Your task to perform on an android device: Clear the shopping cart on bestbuy. Search for "jbl flip 4" on bestbuy, select the first entry, add it to the cart, then select checkout. Image 0: 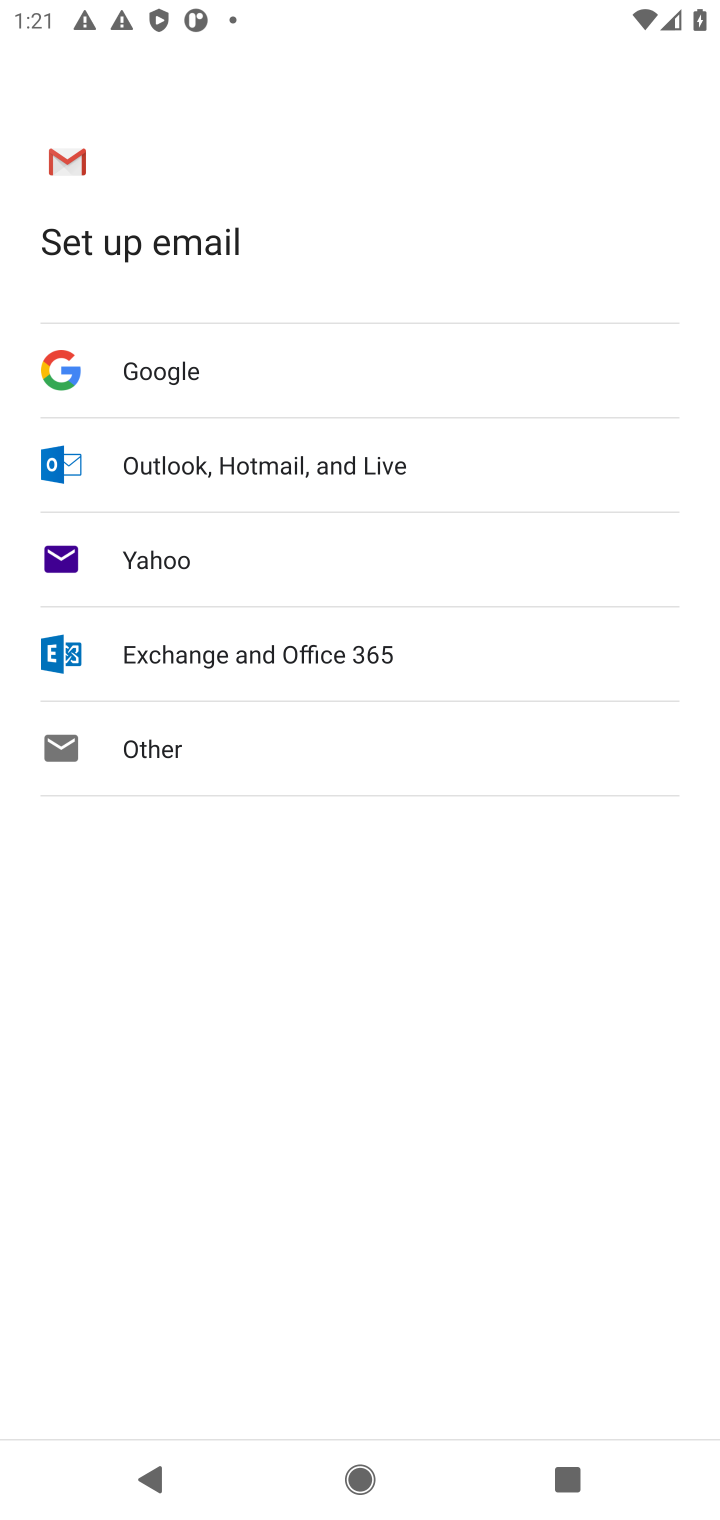
Step 0: press home button
Your task to perform on an android device: Clear the shopping cart on bestbuy. Search for "jbl flip 4" on bestbuy, select the first entry, add it to the cart, then select checkout. Image 1: 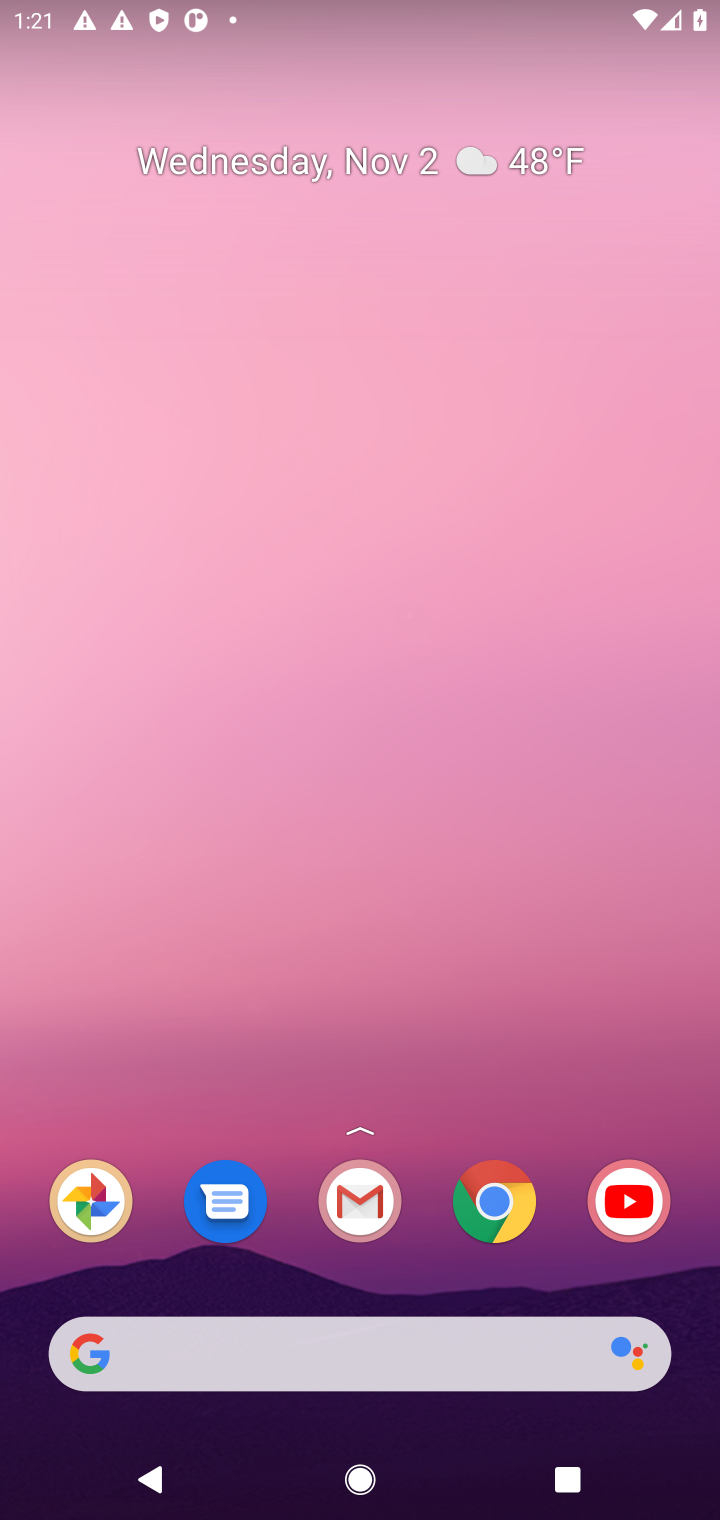
Step 1: click (490, 1214)
Your task to perform on an android device: Clear the shopping cart on bestbuy. Search for "jbl flip 4" on bestbuy, select the first entry, add it to the cart, then select checkout. Image 2: 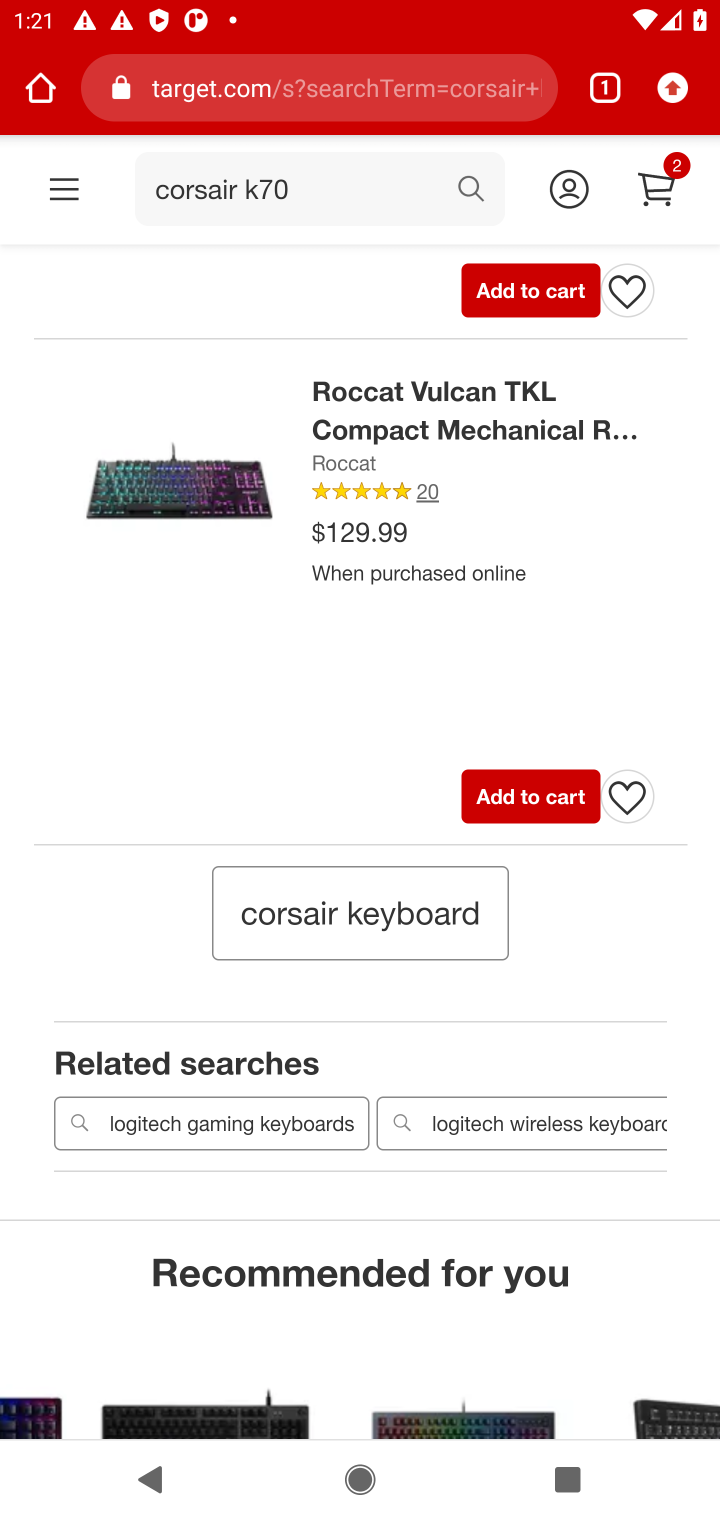
Step 2: click (410, 98)
Your task to perform on an android device: Clear the shopping cart on bestbuy. Search for "jbl flip 4" on bestbuy, select the first entry, add it to the cart, then select checkout. Image 3: 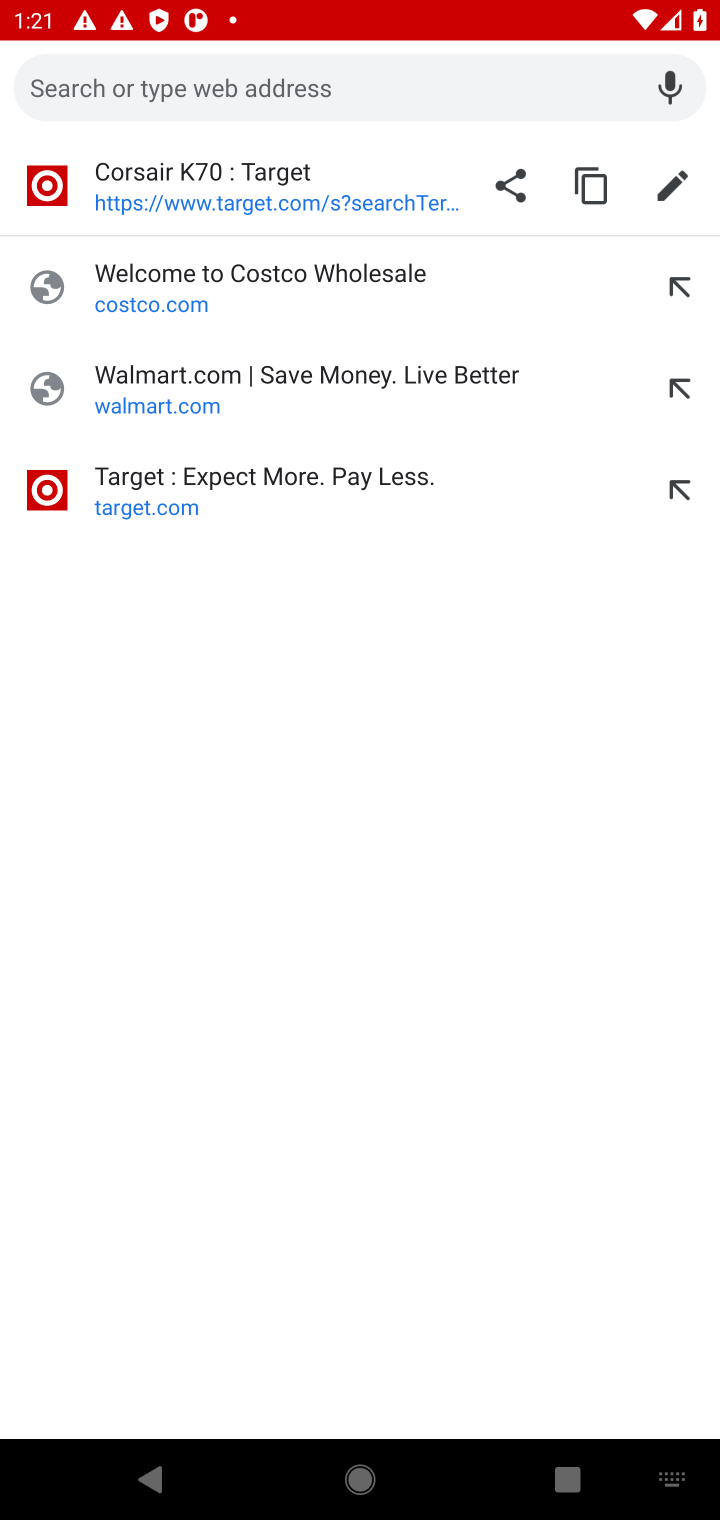
Step 3: press enter
Your task to perform on an android device: Clear the shopping cart on bestbuy. Search for "jbl flip 4" on bestbuy, select the first entry, add it to the cart, then select checkout. Image 4: 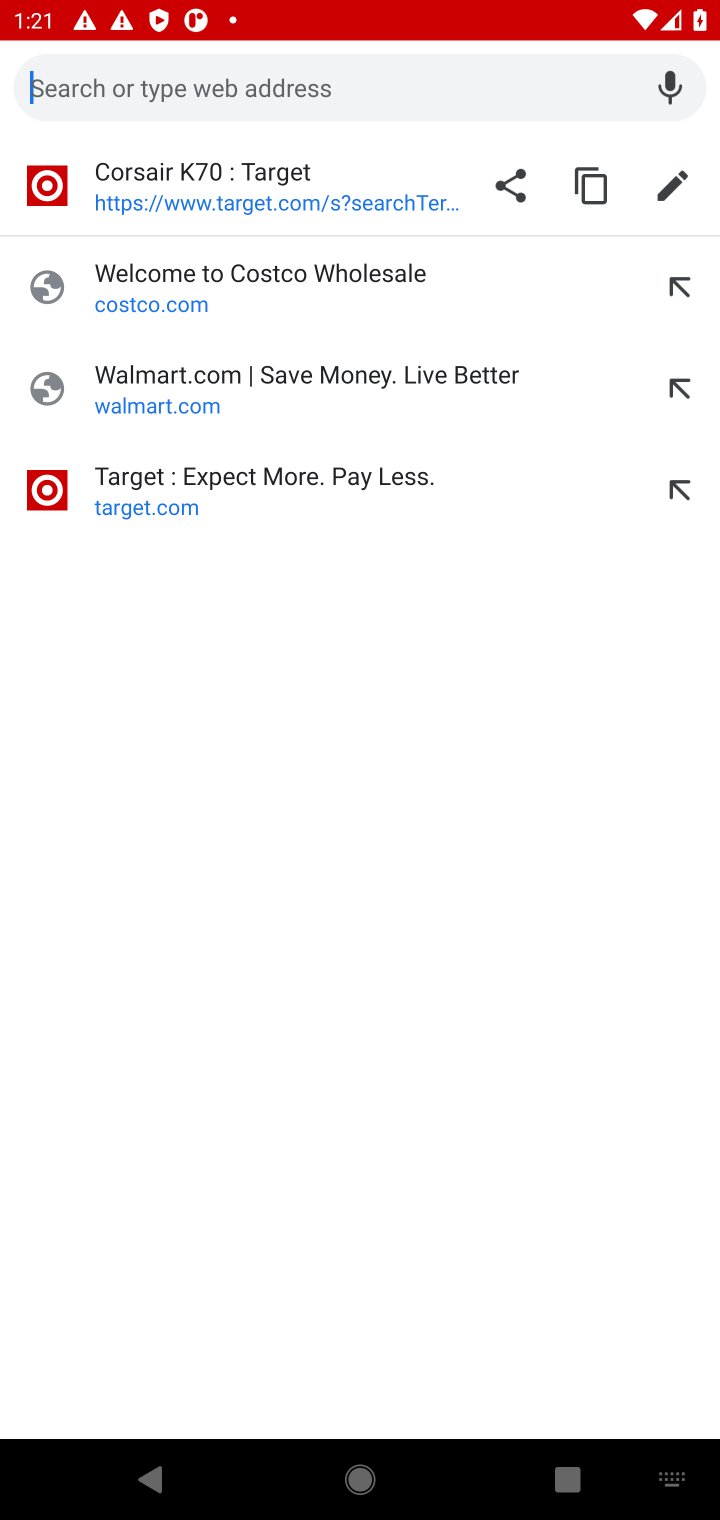
Step 4: type "bestbuy"
Your task to perform on an android device: Clear the shopping cart on bestbuy. Search for "jbl flip 4" on bestbuy, select the first entry, add it to the cart, then select checkout. Image 5: 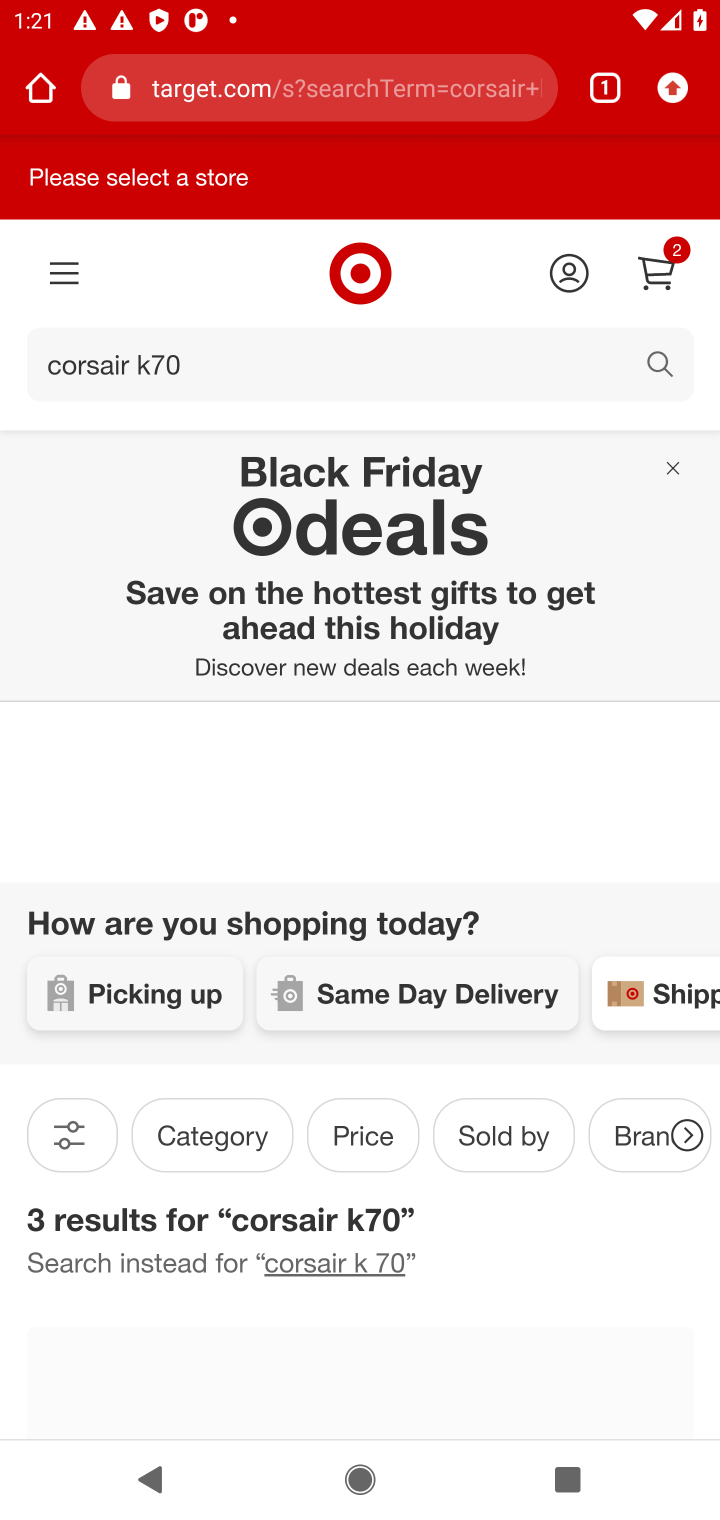
Step 5: click (40, 92)
Your task to perform on an android device: Clear the shopping cart on bestbuy. Search for "jbl flip 4" on bestbuy, select the first entry, add it to the cart, then select checkout. Image 6: 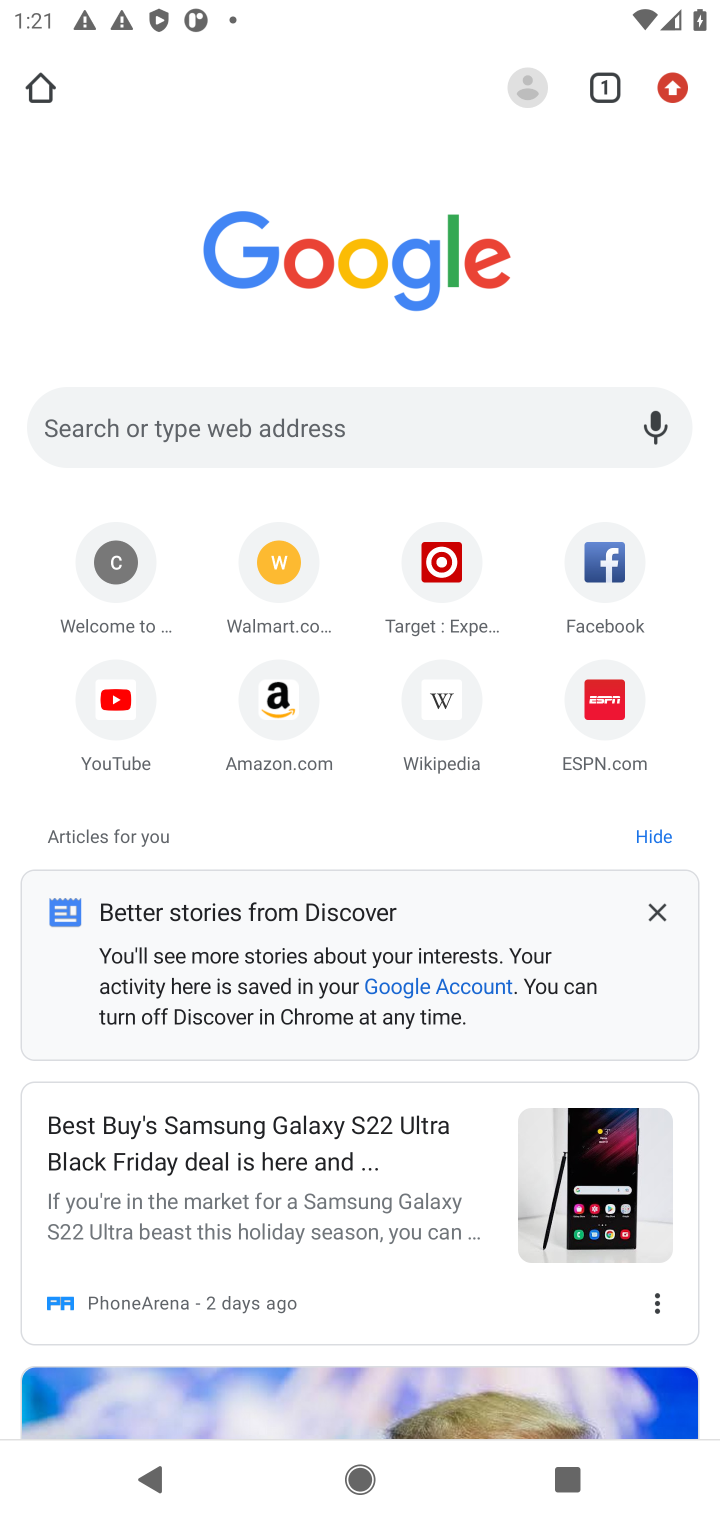
Step 6: press enter
Your task to perform on an android device: Clear the shopping cart on bestbuy. Search for "jbl flip 4" on bestbuy, select the first entry, add it to the cart, then select checkout. Image 7: 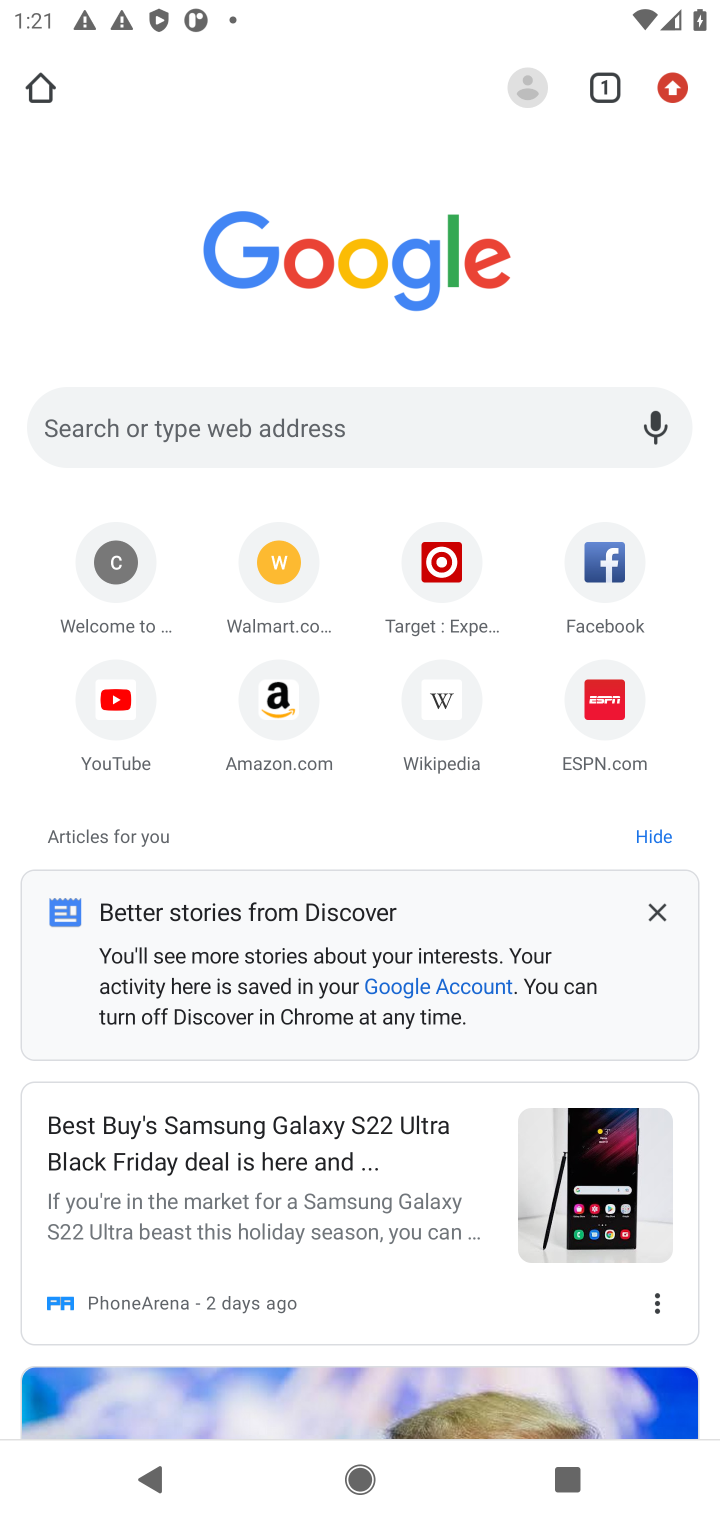
Step 7: type "bestbuy"
Your task to perform on an android device: Clear the shopping cart on bestbuy. Search for "jbl flip 4" on bestbuy, select the first entry, add it to the cart, then select checkout. Image 8: 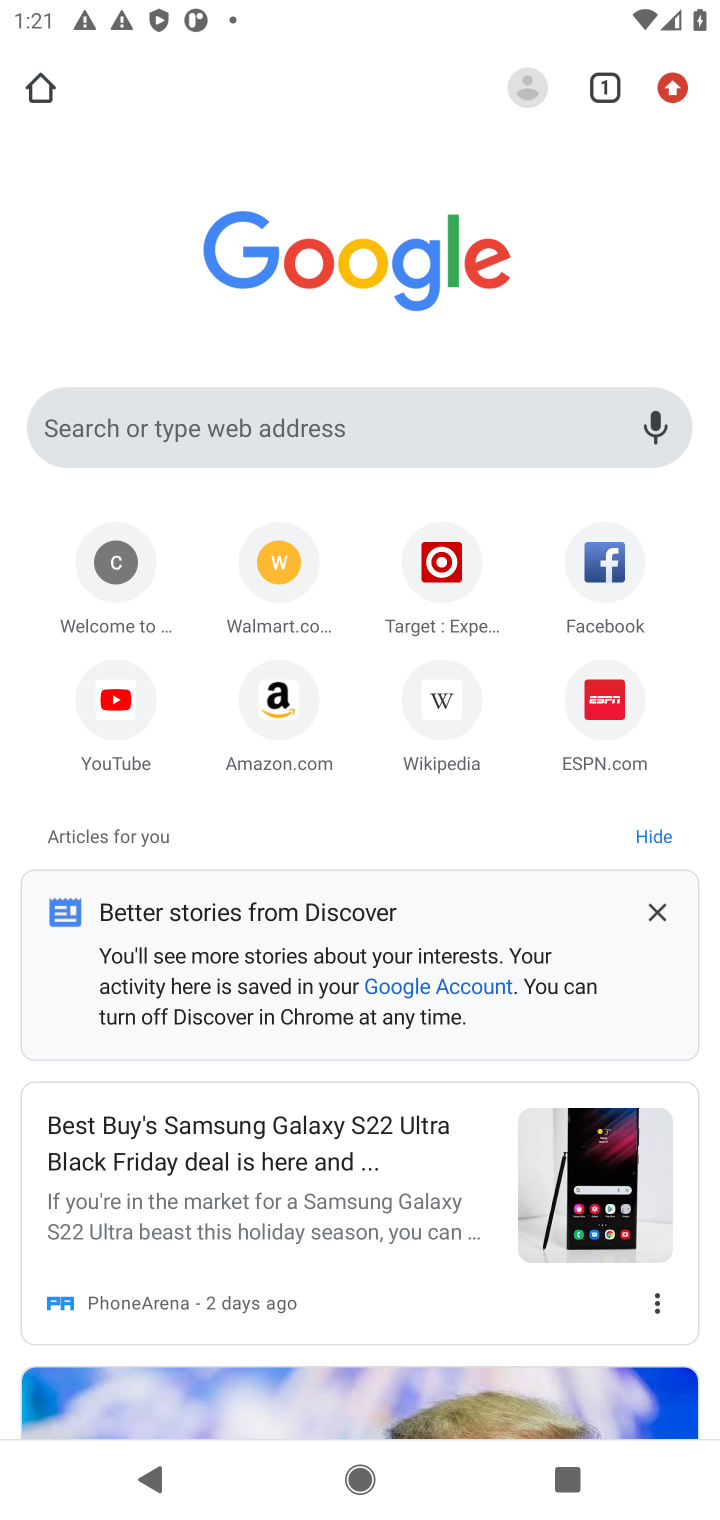
Step 8: click (496, 413)
Your task to perform on an android device: Clear the shopping cart on bestbuy. Search for "jbl flip 4" on bestbuy, select the first entry, add it to the cart, then select checkout. Image 9: 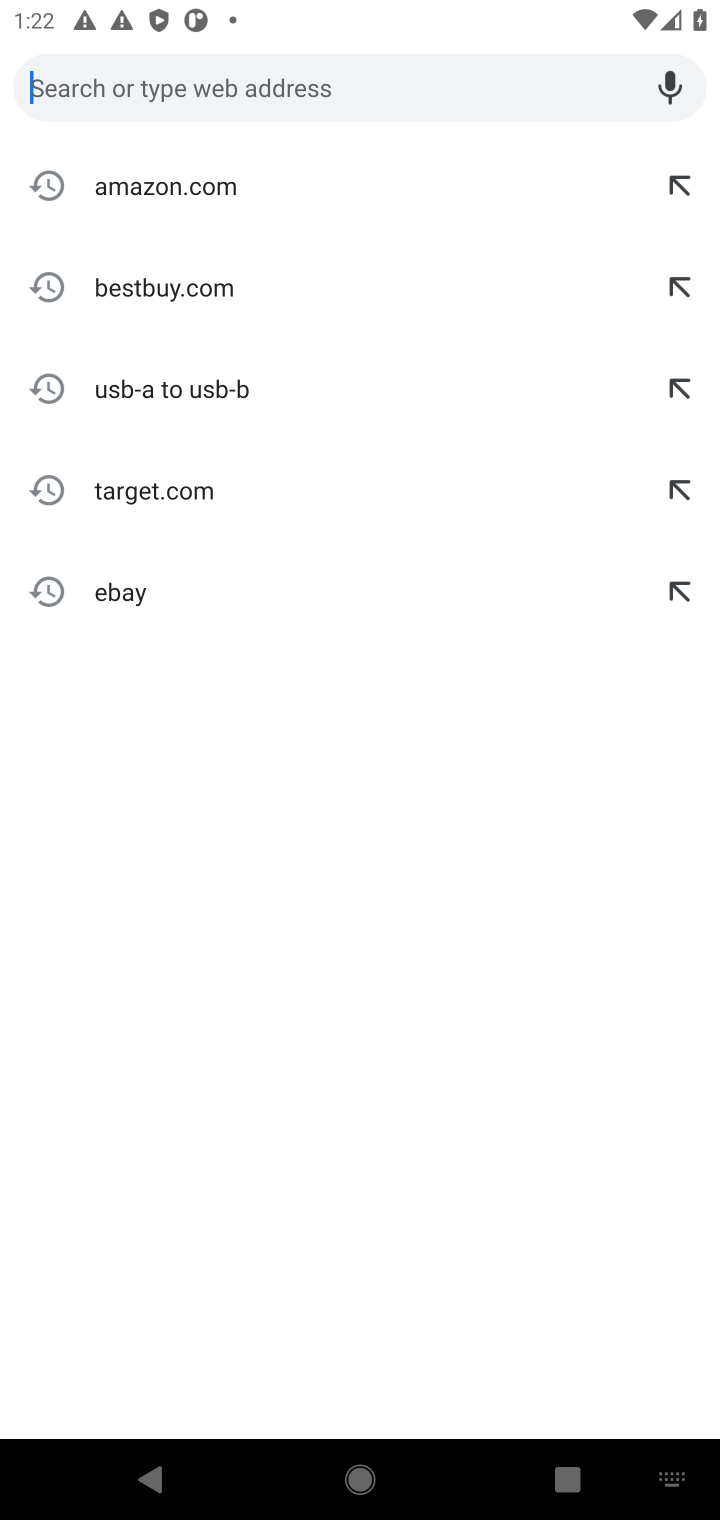
Step 9: click (208, 283)
Your task to perform on an android device: Clear the shopping cart on bestbuy. Search for "jbl flip 4" on bestbuy, select the first entry, add it to the cart, then select checkout. Image 10: 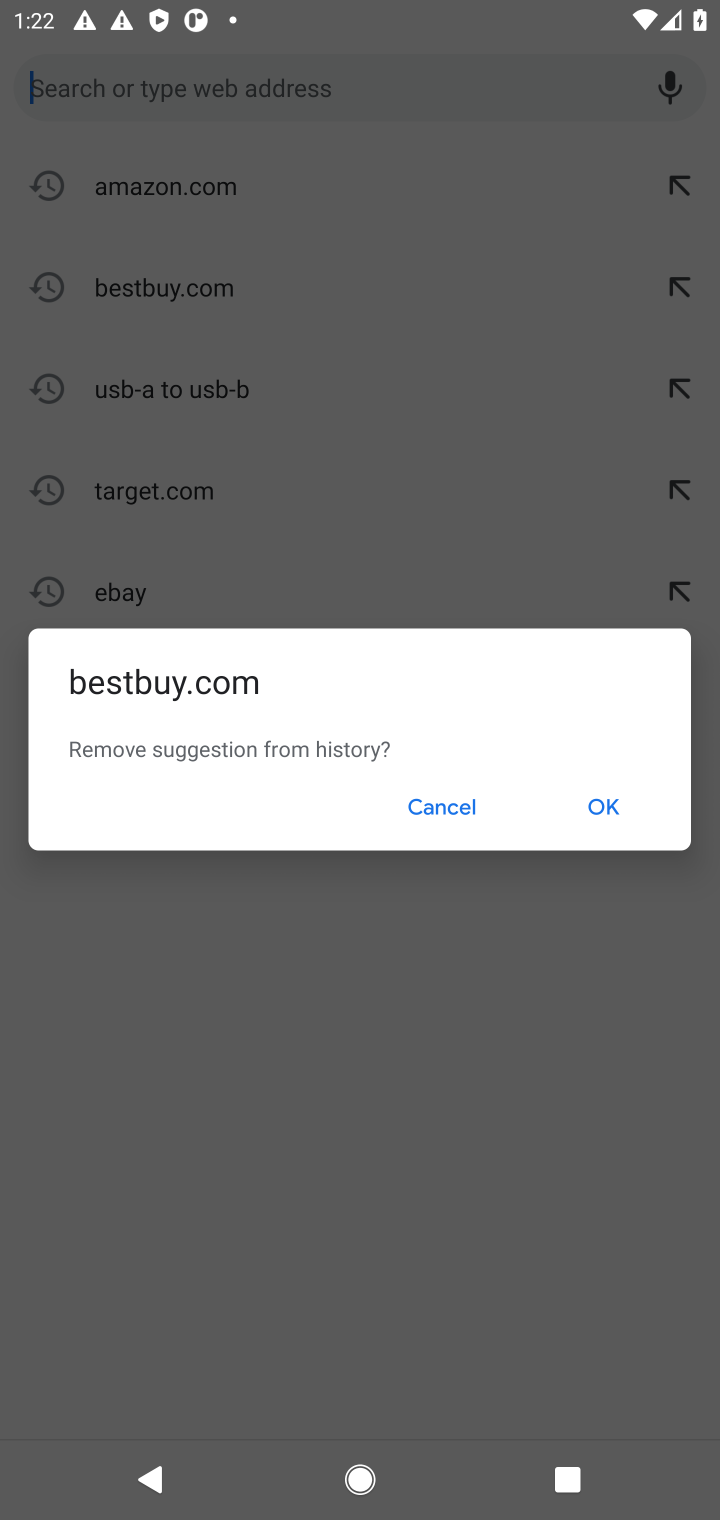
Step 10: click (607, 796)
Your task to perform on an android device: Clear the shopping cart on bestbuy. Search for "jbl flip 4" on bestbuy, select the first entry, add it to the cart, then select checkout. Image 11: 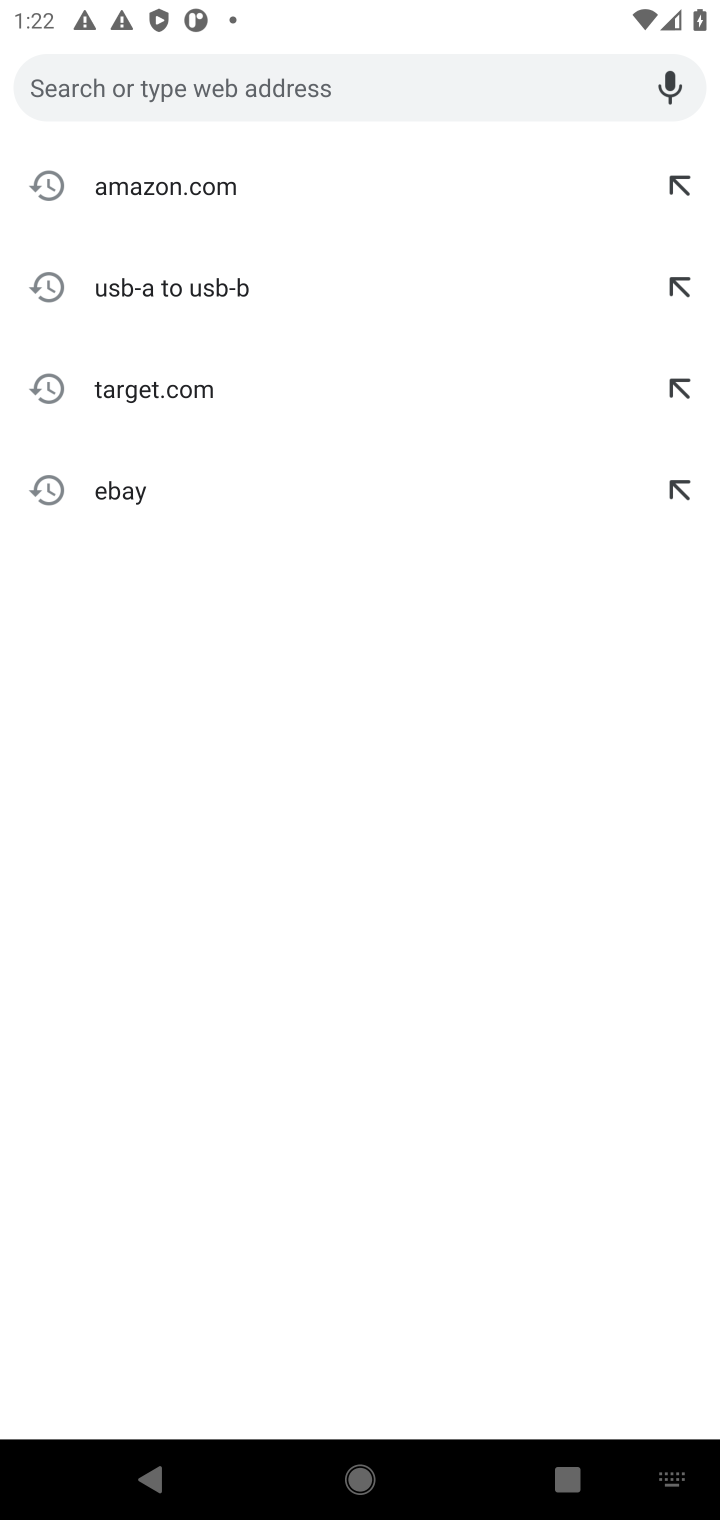
Step 11: click (415, 93)
Your task to perform on an android device: Clear the shopping cart on bestbuy. Search for "jbl flip 4" on bestbuy, select the first entry, add it to the cart, then select checkout. Image 12: 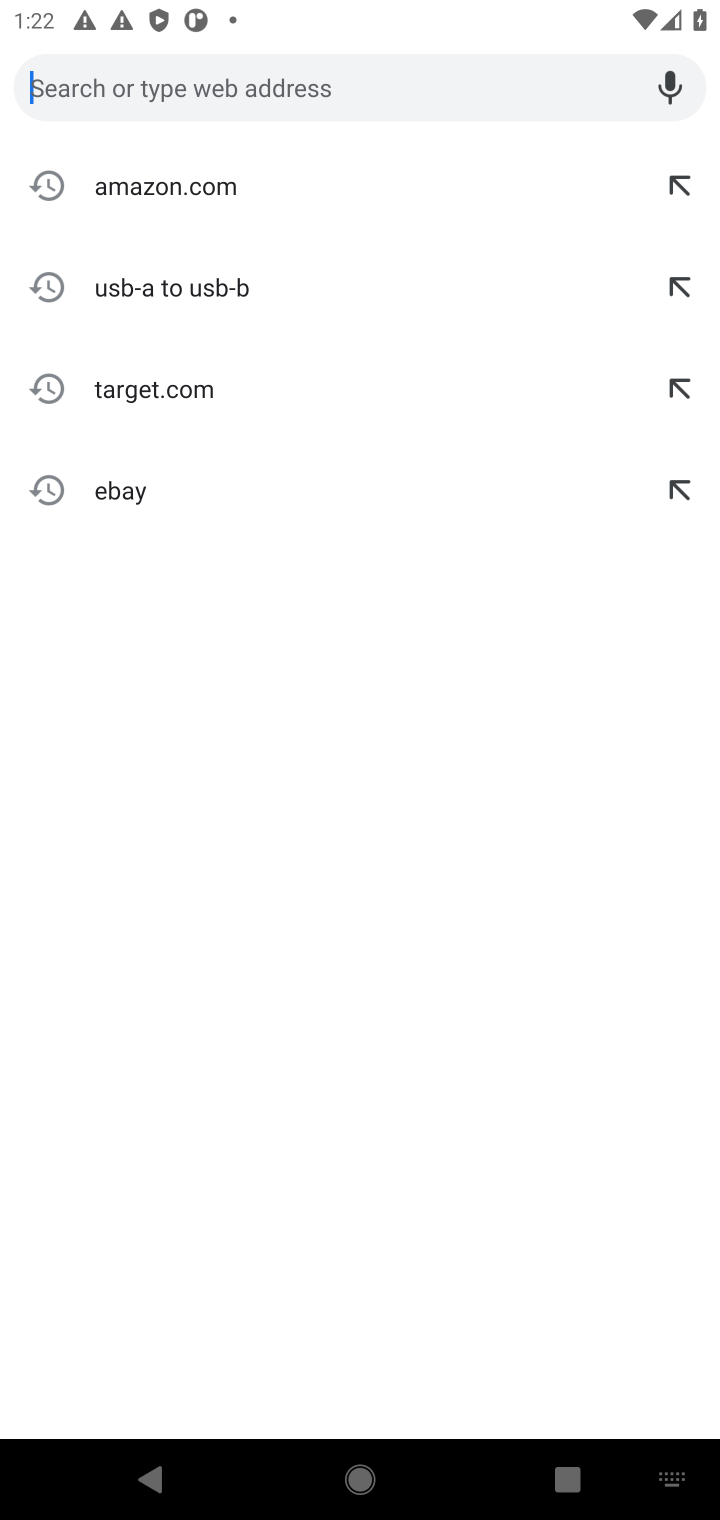
Step 12: type "bestbuy"
Your task to perform on an android device: Clear the shopping cart on bestbuy. Search for "jbl flip 4" on bestbuy, select the first entry, add it to the cart, then select checkout. Image 13: 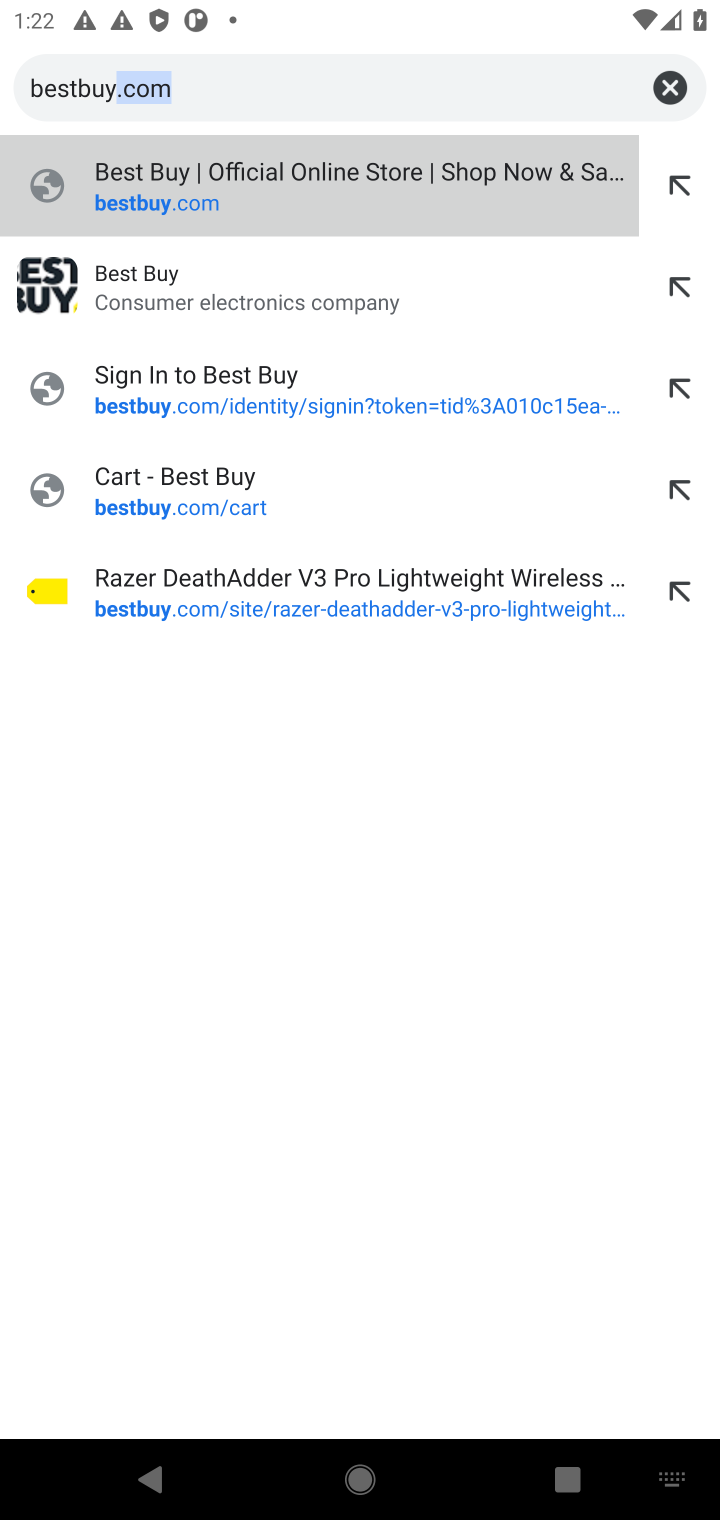
Step 13: press enter
Your task to perform on an android device: Clear the shopping cart on bestbuy. Search for "jbl flip 4" on bestbuy, select the first entry, add it to the cart, then select checkout. Image 14: 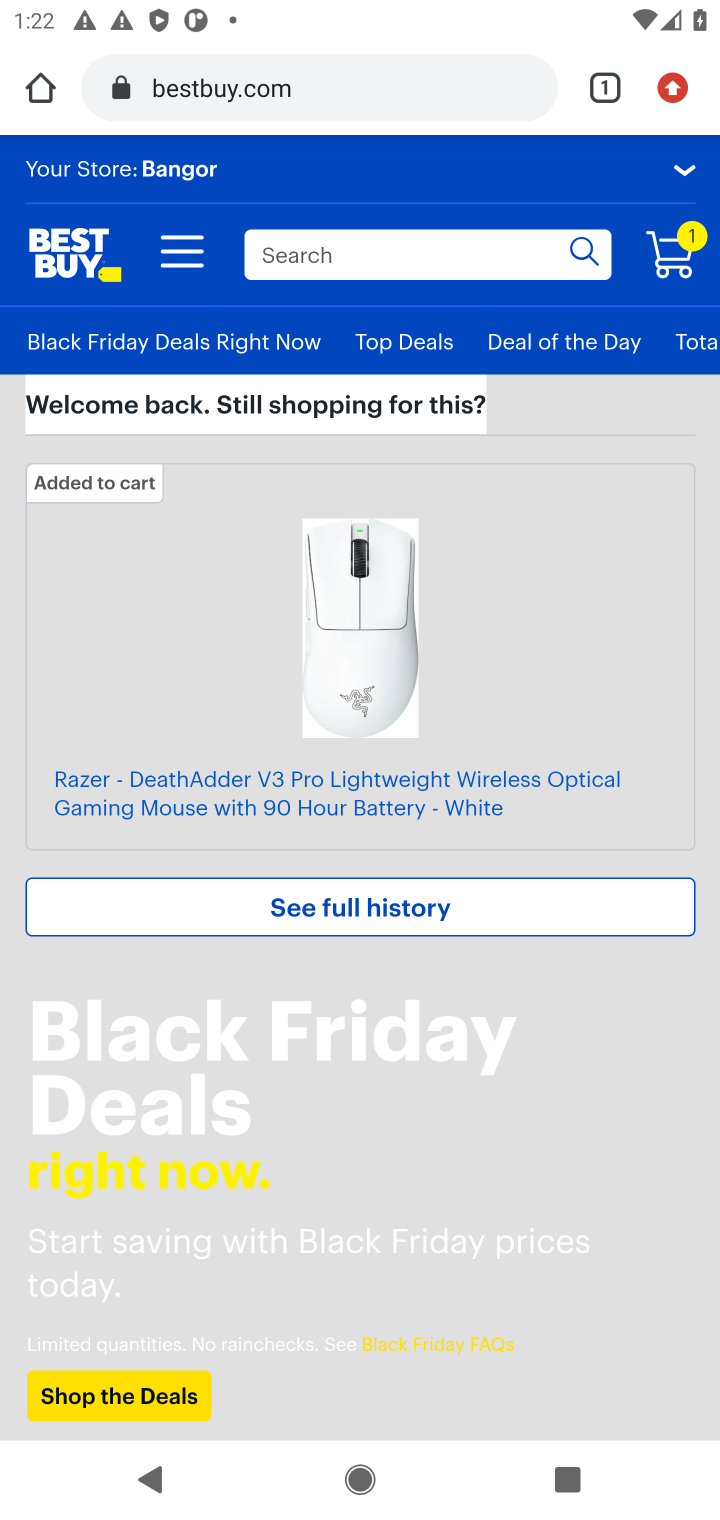
Step 14: click (675, 247)
Your task to perform on an android device: Clear the shopping cart on bestbuy. Search for "jbl flip 4" on bestbuy, select the first entry, add it to the cart, then select checkout. Image 15: 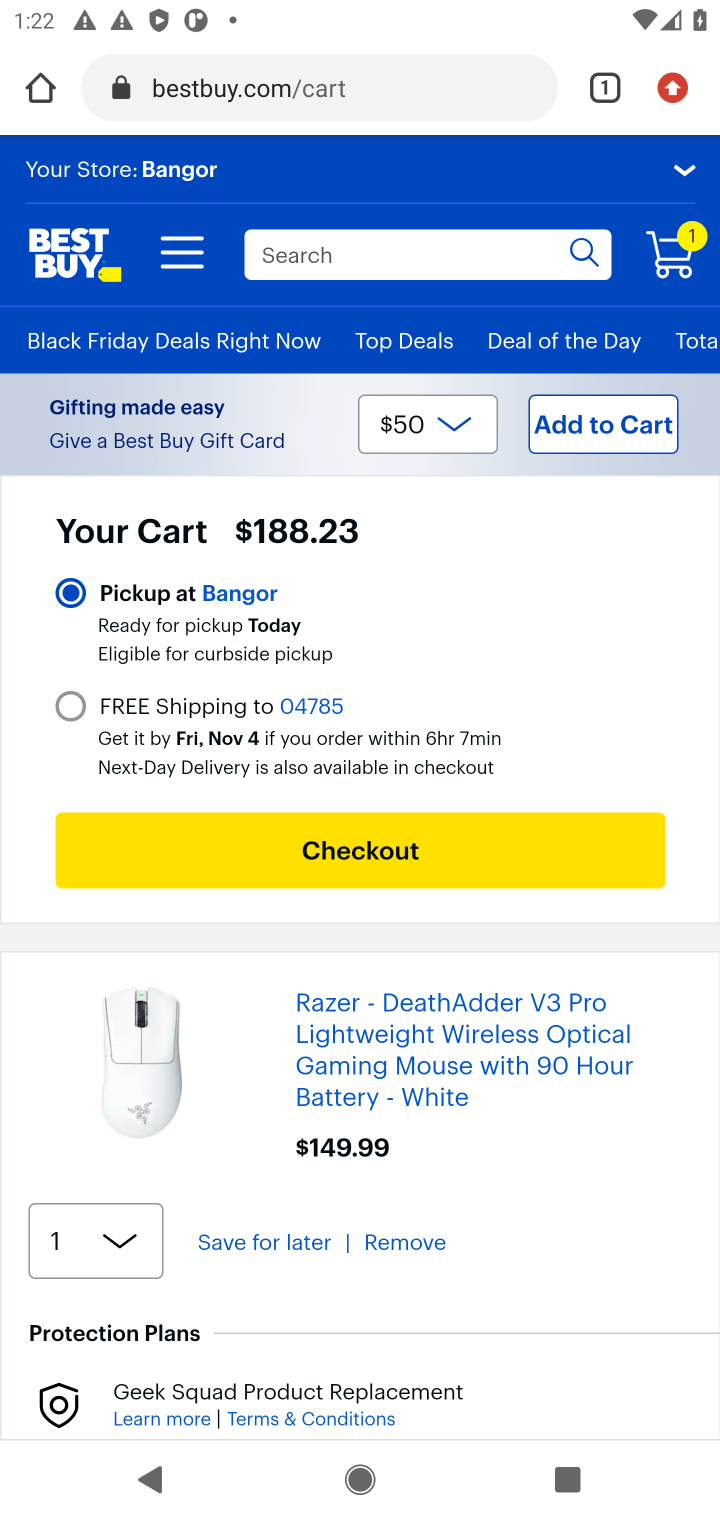
Step 15: click (417, 1239)
Your task to perform on an android device: Clear the shopping cart on bestbuy. Search for "jbl flip 4" on bestbuy, select the first entry, add it to the cart, then select checkout. Image 16: 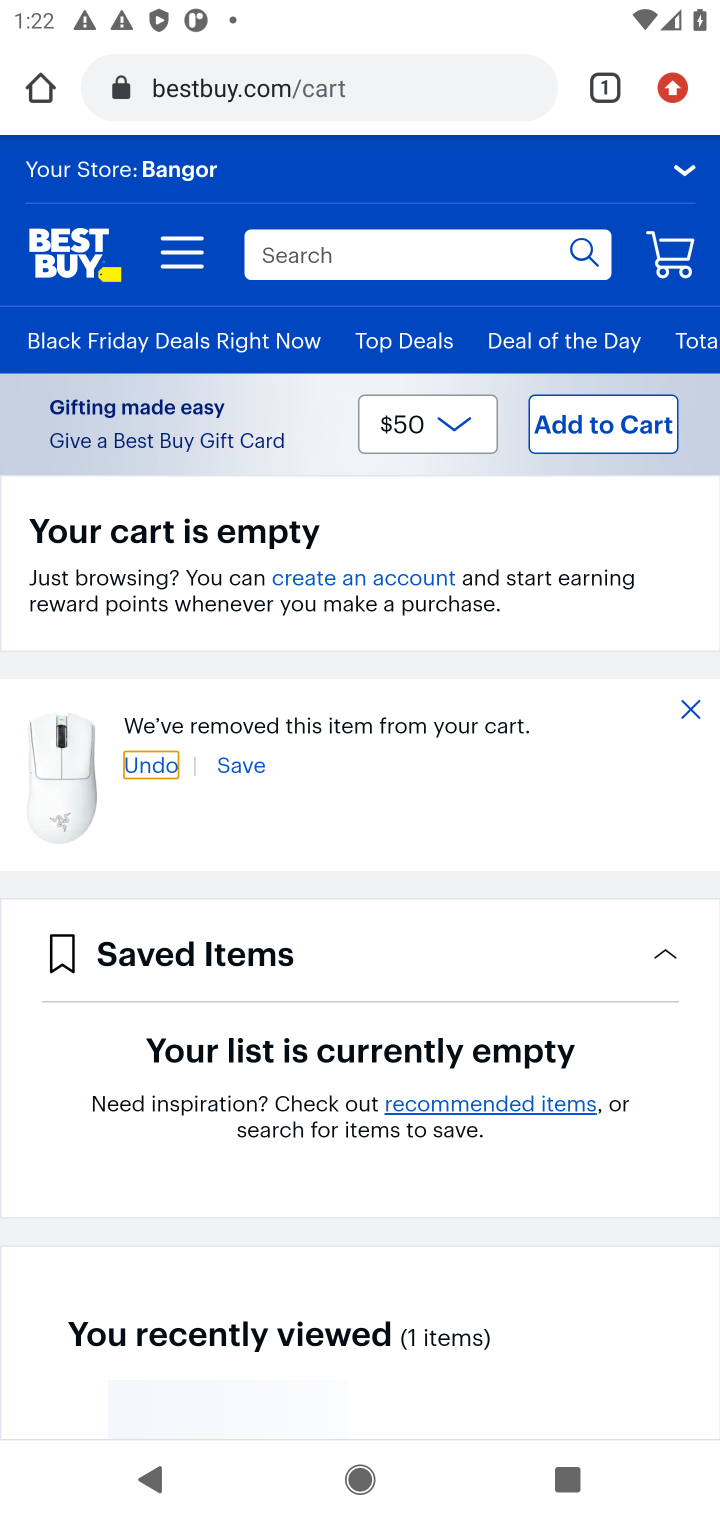
Step 16: click (689, 701)
Your task to perform on an android device: Clear the shopping cart on bestbuy. Search for "jbl flip 4" on bestbuy, select the first entry, add it to the cart, then select checkout. Image 17: 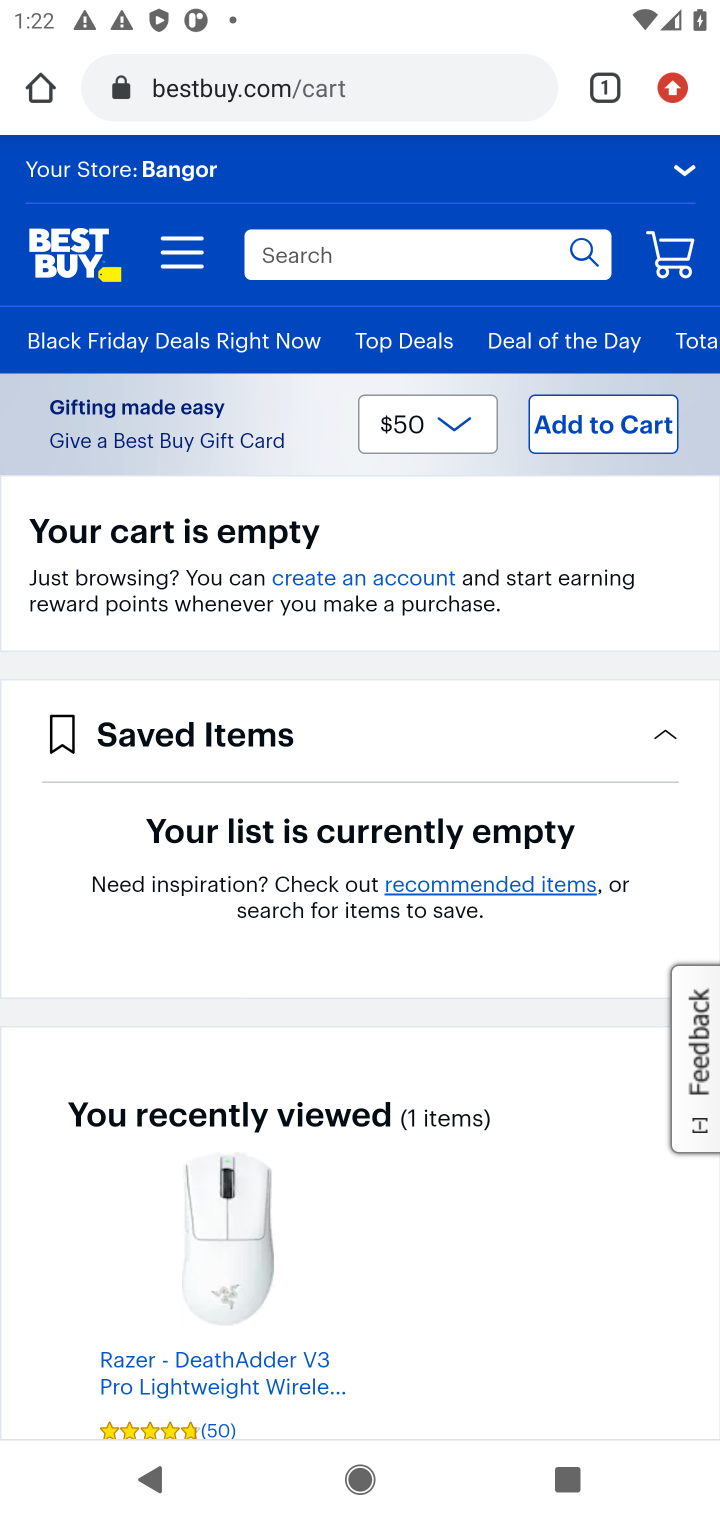
Step 17: click (427, 253)
Your task to perform on an android device: Clear the shopping cart on bestbuy. Search for "jbl flip 4" on bestbuy, select the first entry, add it to the cart, then select checkout. Image 18: 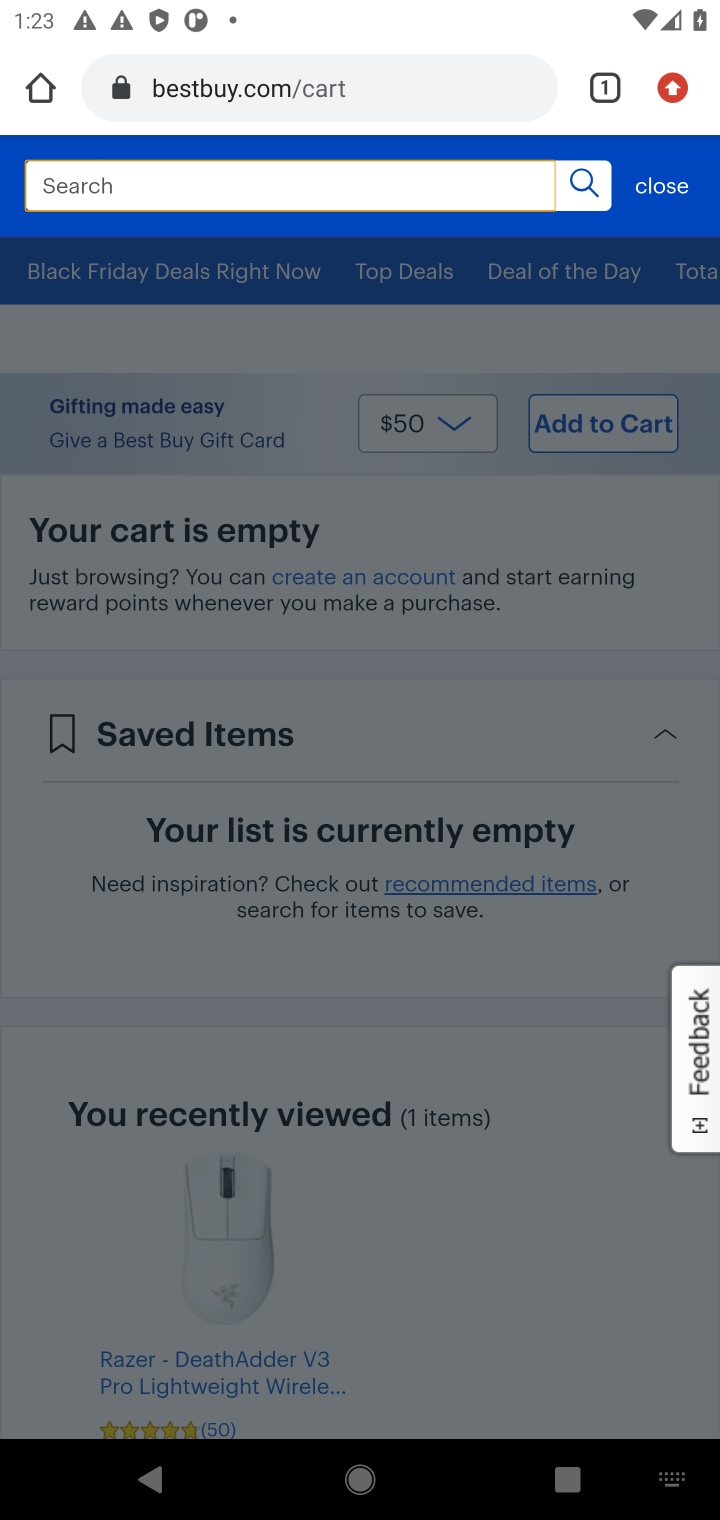
Step 18: type "jbl flip 4"
Your task to perform on an android device: Clear the shopping cart on bestbuy. Search for "jbl flip 4" on bestbuy, select the first entry, add it to the cart, then select checkout. Image 19: 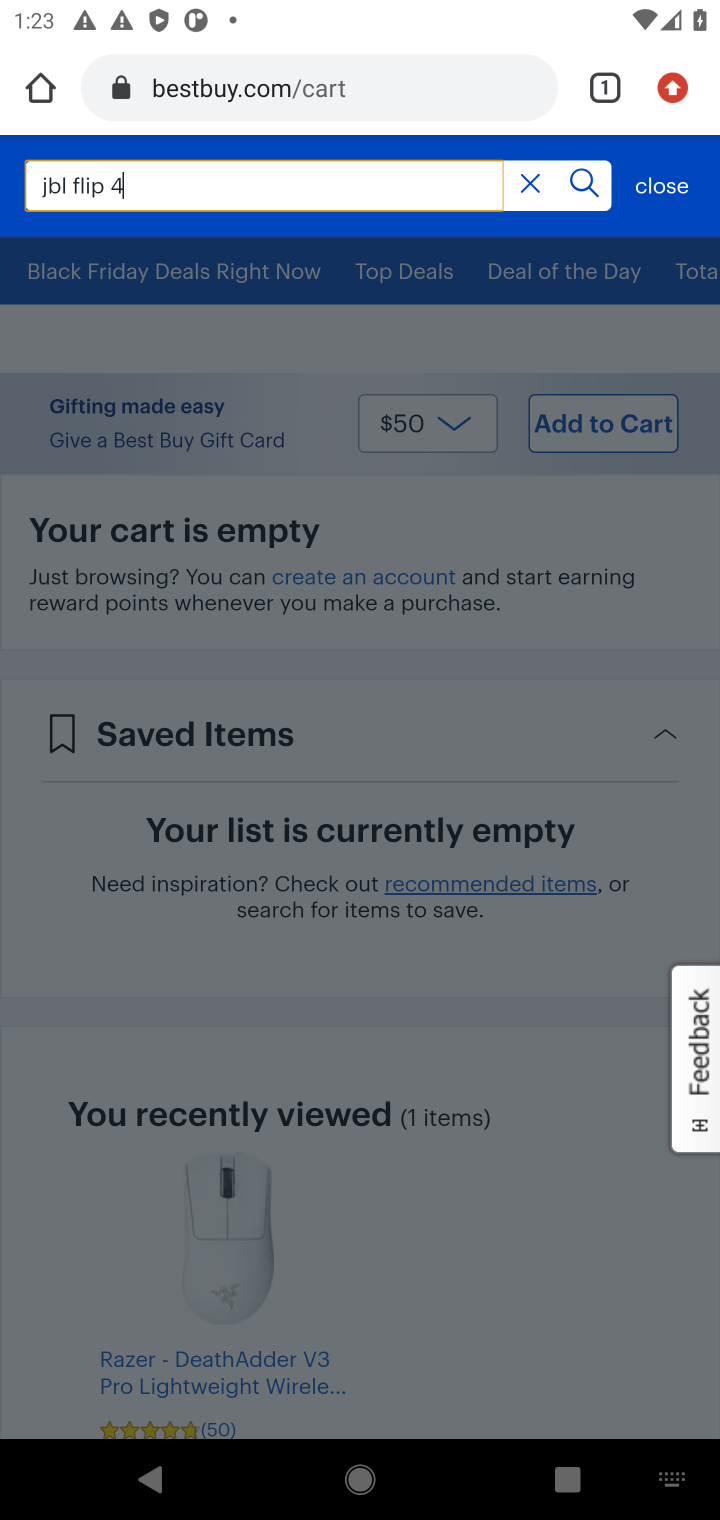
Step 19: press enter
Your task to perform on an android device: Clear the shopping cart on bestbuy. Search for "jbl flip 4" on bestbuy, select the first entry, add it to the cart, then select checkout. Image 20: 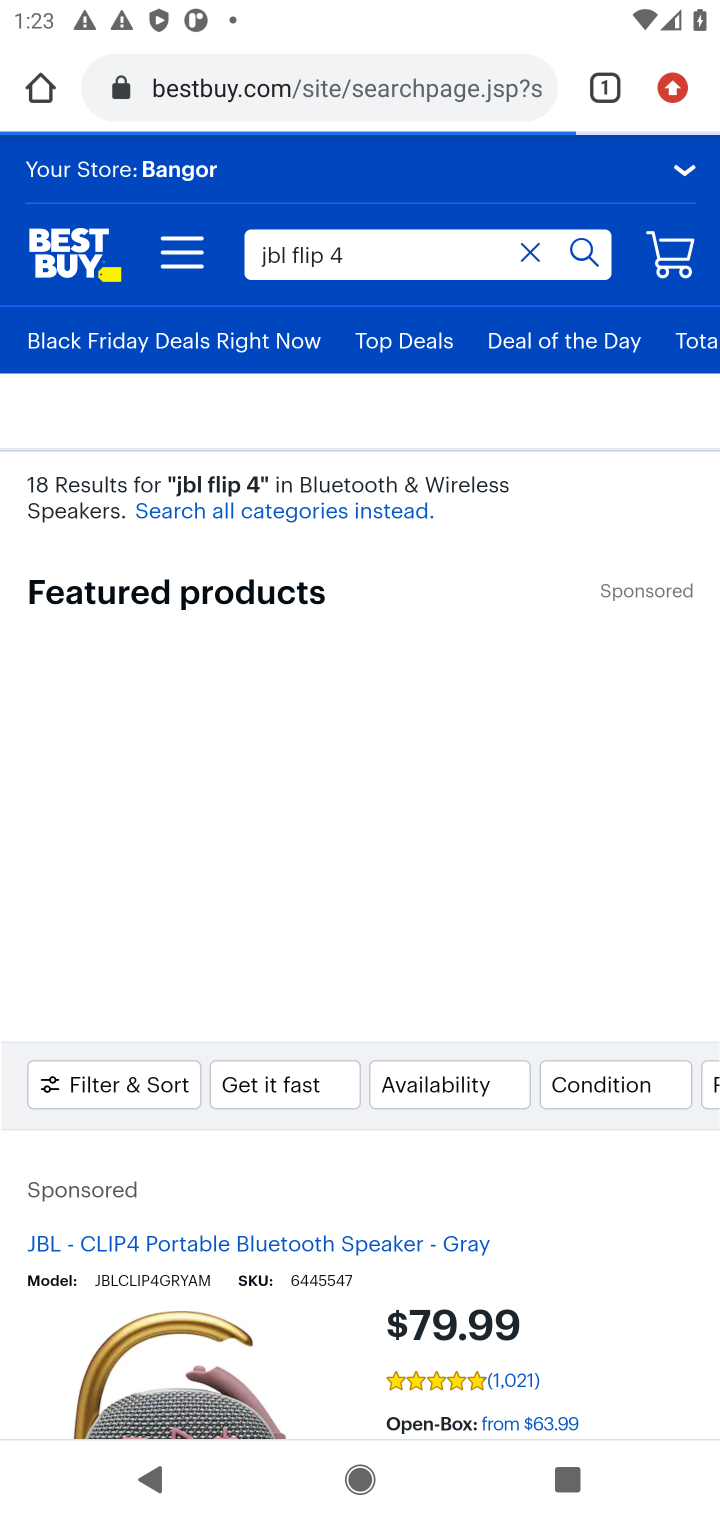
Step 20: drag from (298, 1260) to (326, 780)
Your task to perform on an android device: Clear the shopping cart on bestbuy. Search for "jbl flip 4" on bestbuy, select the first entry, add it to the cart, then select checkout. Image 21: 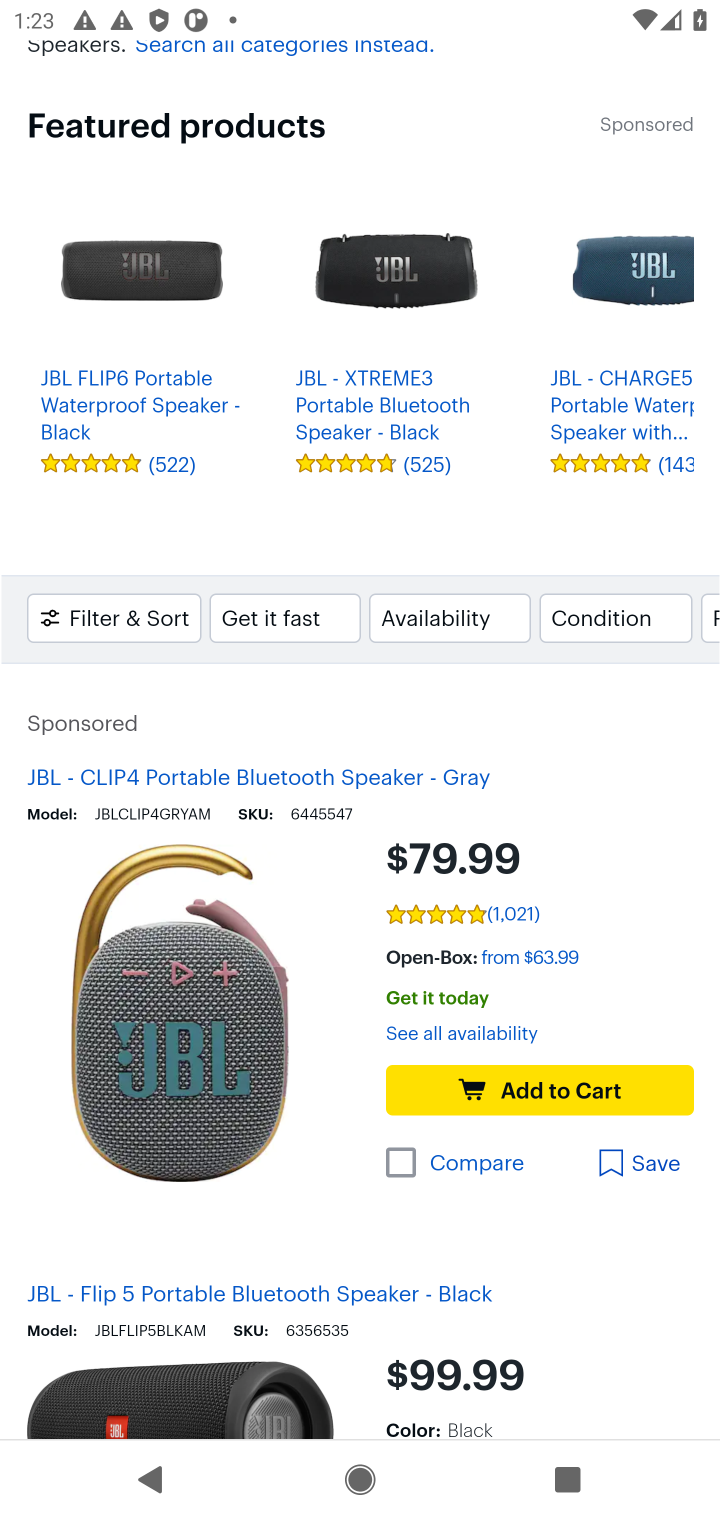
Step 21: drag from (405, 1052) to (384, 824)
Your task to perform on an android device: Clear the shopping cart on bestbuy. Search for "jbl flip 4" on bestbuy, select the first entry, add it to the cart, then select checkout. Image 22: 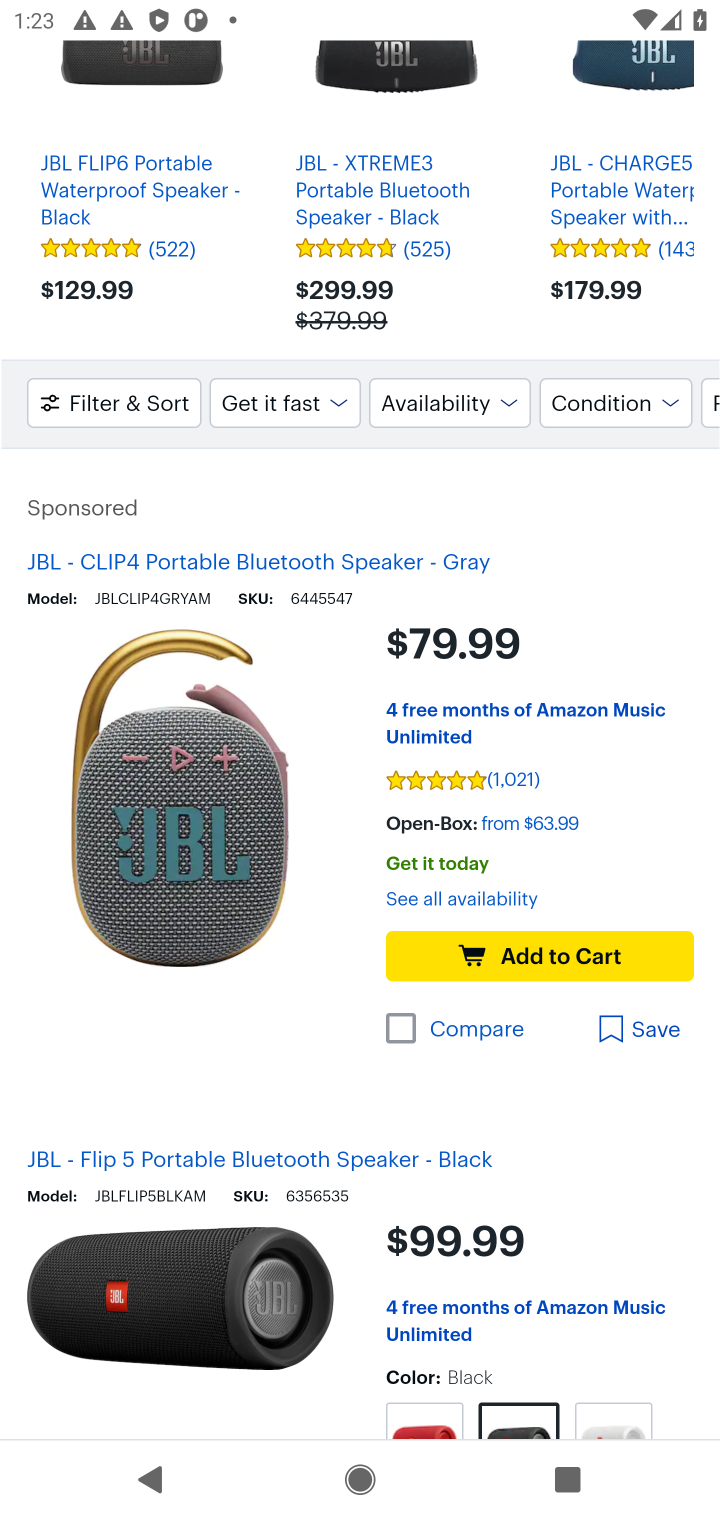
Step 22: drag from (445, 988) to (407, 742)
Your task to perform on an android device: Clear the shopping cart on bestbuy. Search for "jbl flip 4" on bestbuy, select the first entry, add it to the cart, then select checkout. Image 23: 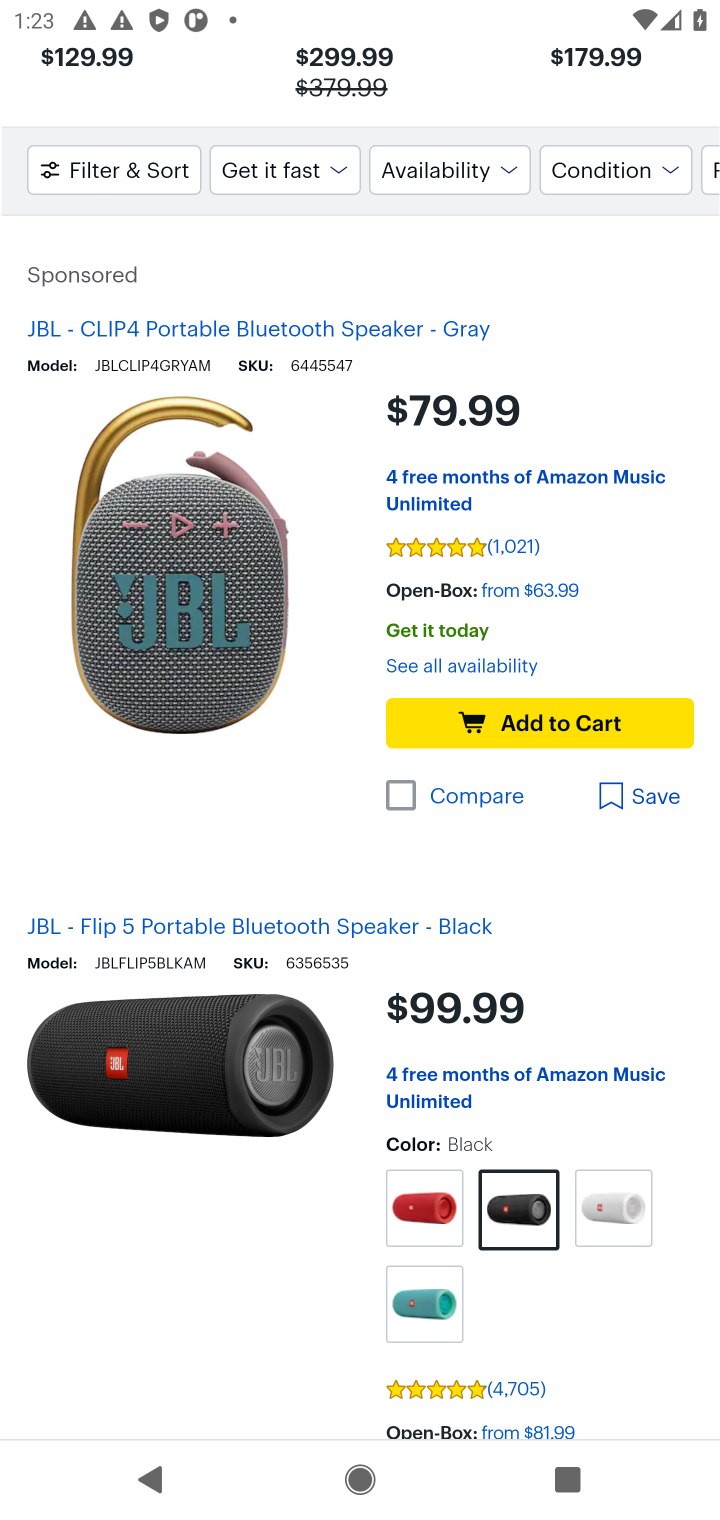
Step 23: drag from (520, 995) to (511, 907)
Your task to perform on an android device: Clear the shopping cart on bestbuy. Search for "jbl flip 4" on bestbuy, select the first entry, add it to the cart, then select checkout. Image 24: 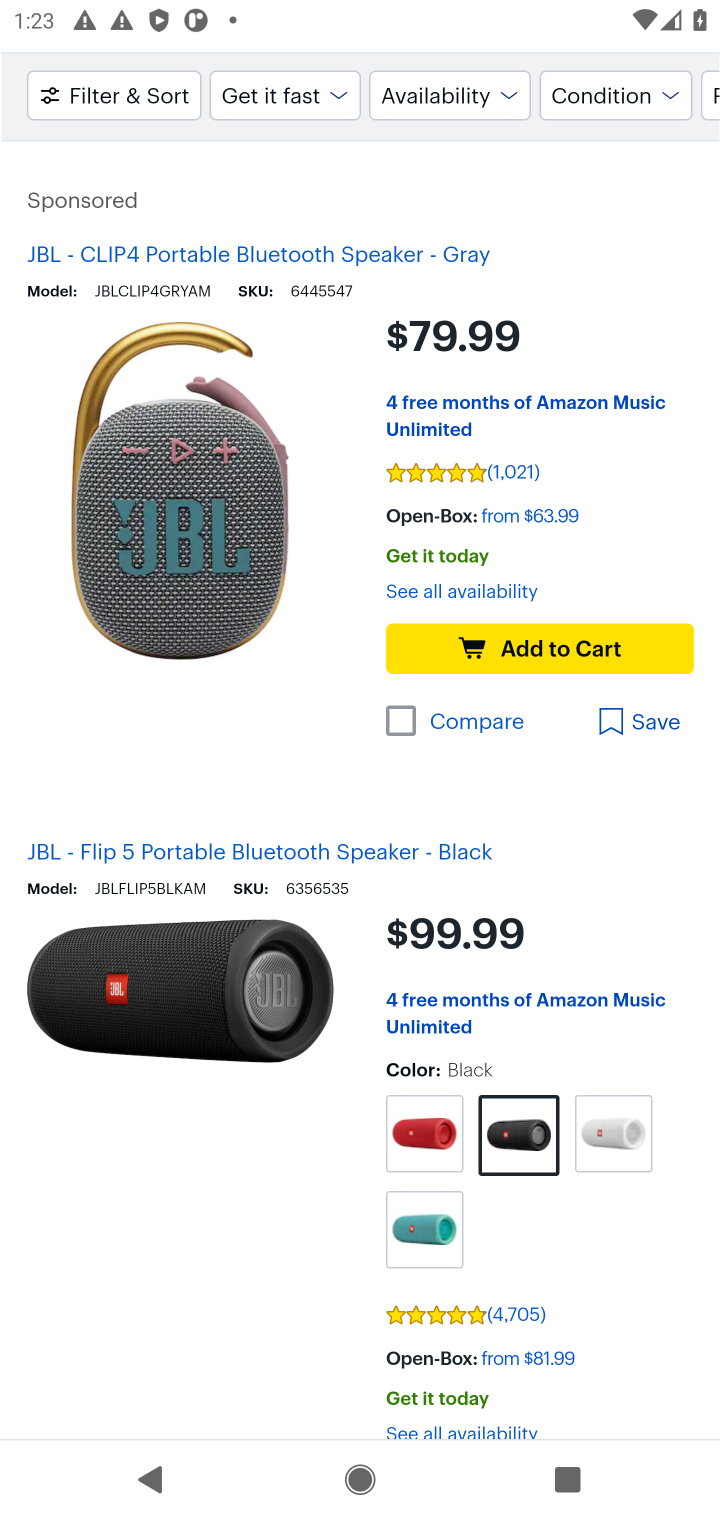
Step 24: drag from (504, 1290) to (413, 738)
Your task to perform on an android device: Clear the shopping cart on bestbuy. Search for "jbl flip 4" on bestbuy, select the first entry, add it to the cart, then select checkout. Image 25: 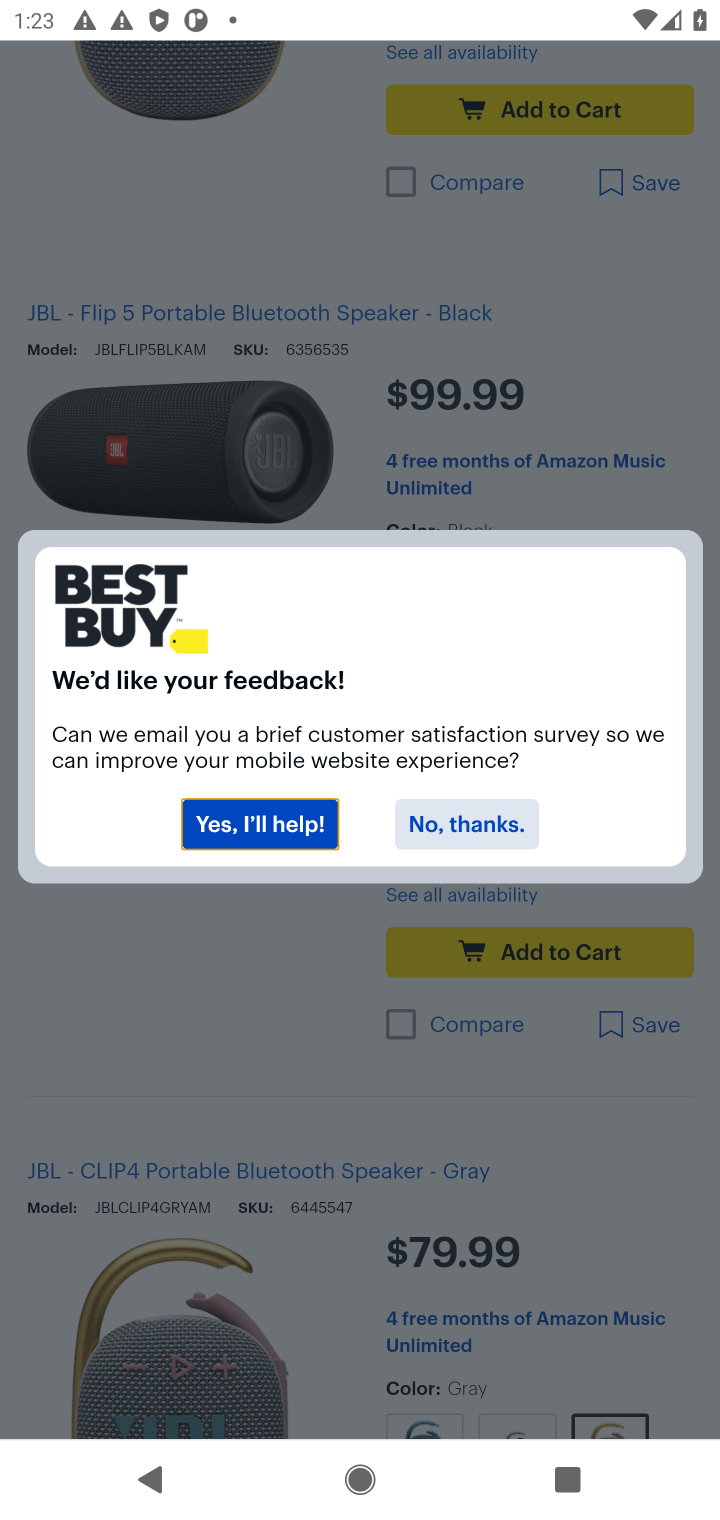
Step 25: click (442, 821)
Your task to perform on an android device: Clear the shopping cart on bestbuy. Search for "jbl flip 4" on bestbuy, select the first entry, add it to the cart, then select checkout. Image 26: 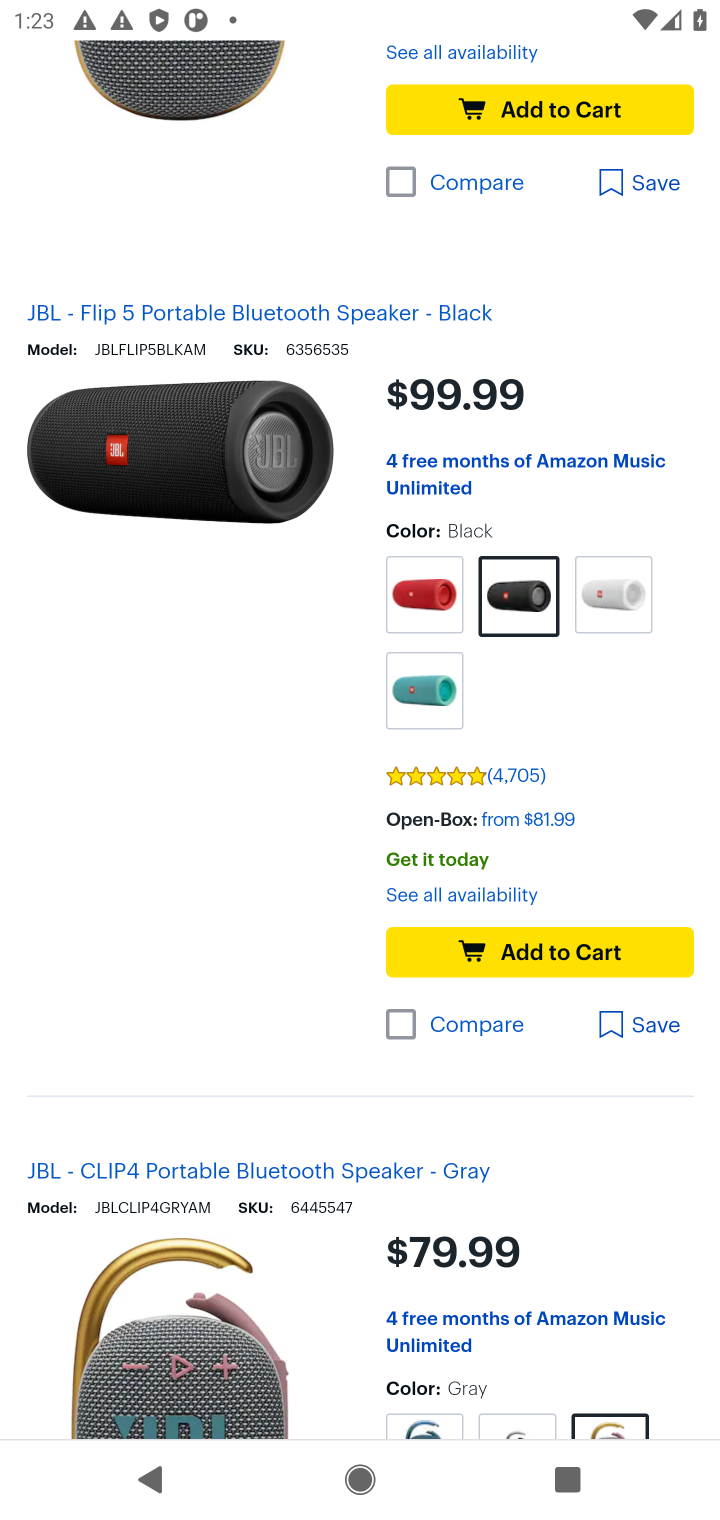
Step 26: click (224, 427)
Your task to perform on an android device: Clear the shopping cart on bestbuy. Search for "jbl flip 4" on bestbuy, select the first entry, add it to the cart, then select checkout. Image 27: 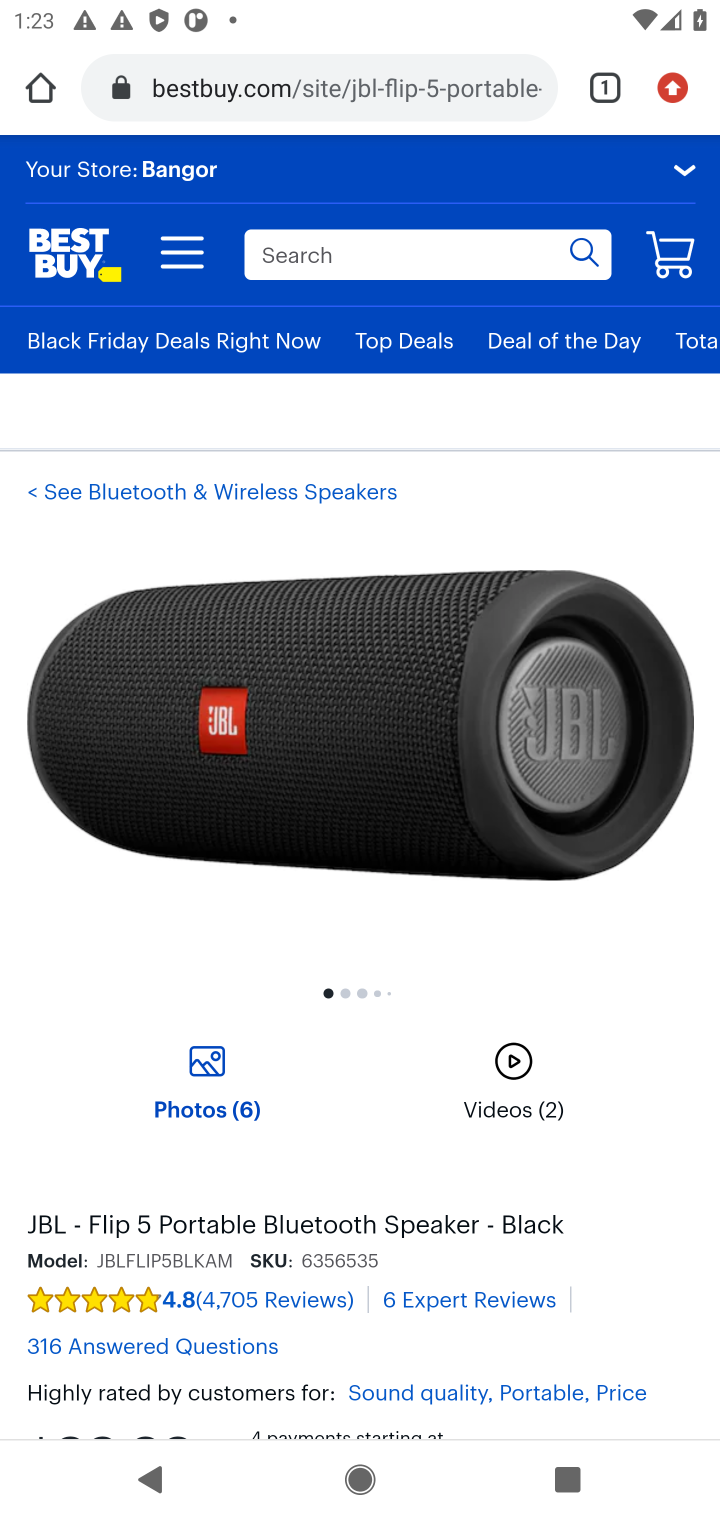
Step 27: drag from (508, 1175) to (459, 629)
Your task to perform on an android device: Clear the shopping cart on bestbuy. Search for "jbl flip 4" on bestbuy, select the first entry, add it to the cart, then select checkout. Image 28: 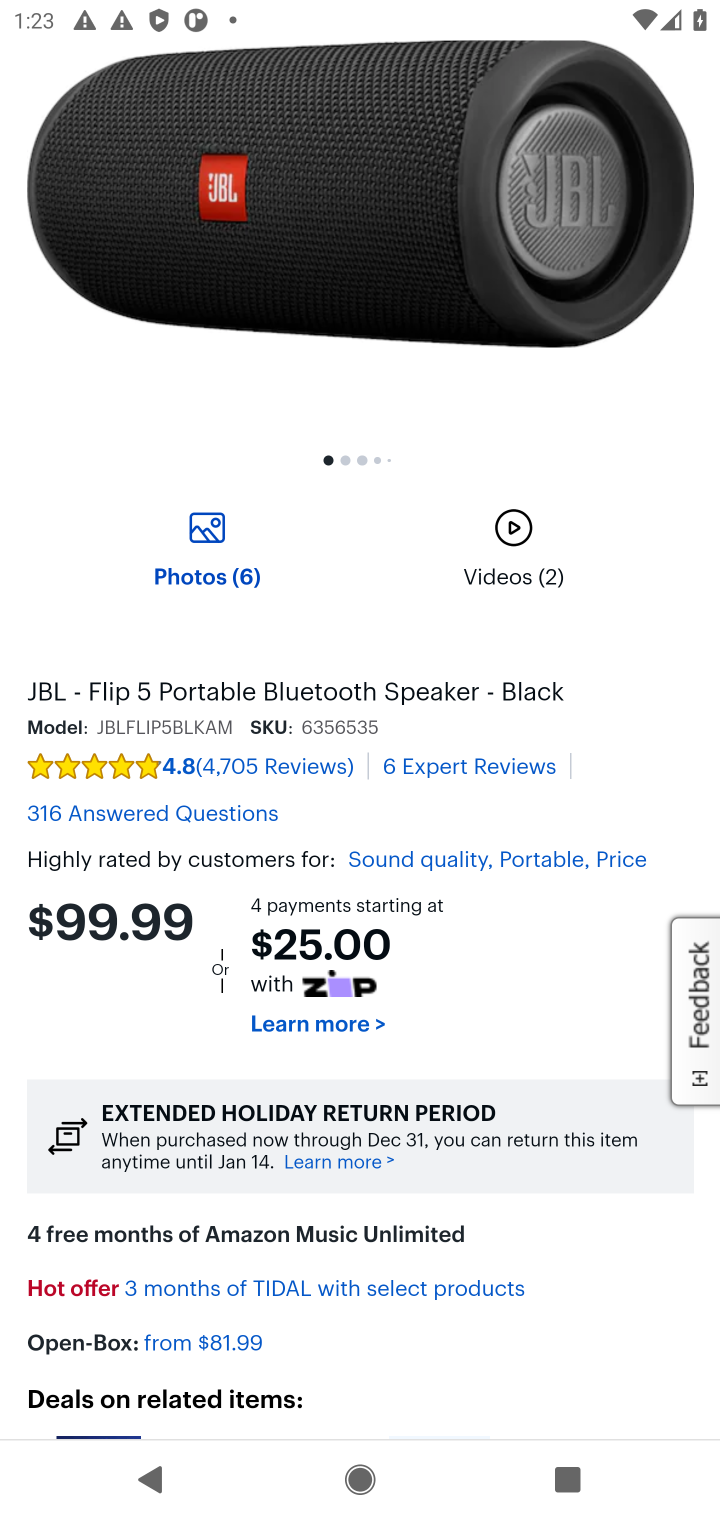
Step 28: drag from (533, 1013) to (404, 694)
Your task to perform on an android device: Clear the shopping cart on bestbuy. Search for "jbl flip 4" on bestbuy, select the first entry, add it to the cart, then select checkout. Image 29: 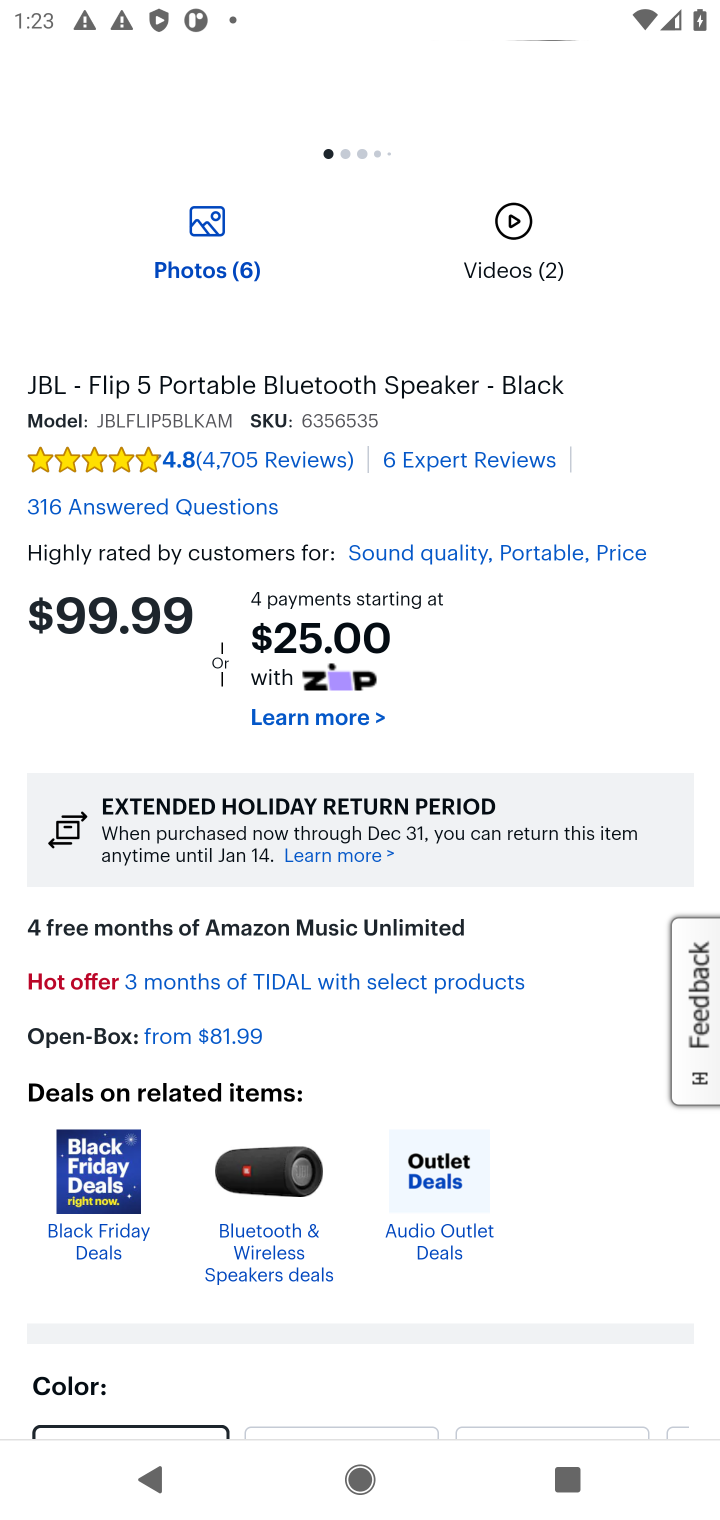
Step 29: drag from (596, 1343) to (555, 878)
Your task to perform on an android device: Clear the shopping cart on bestbuy. Search for "jbl flip 4" on bestbuy, select the first entry, add it to the cart, then select checkout. Image 30: 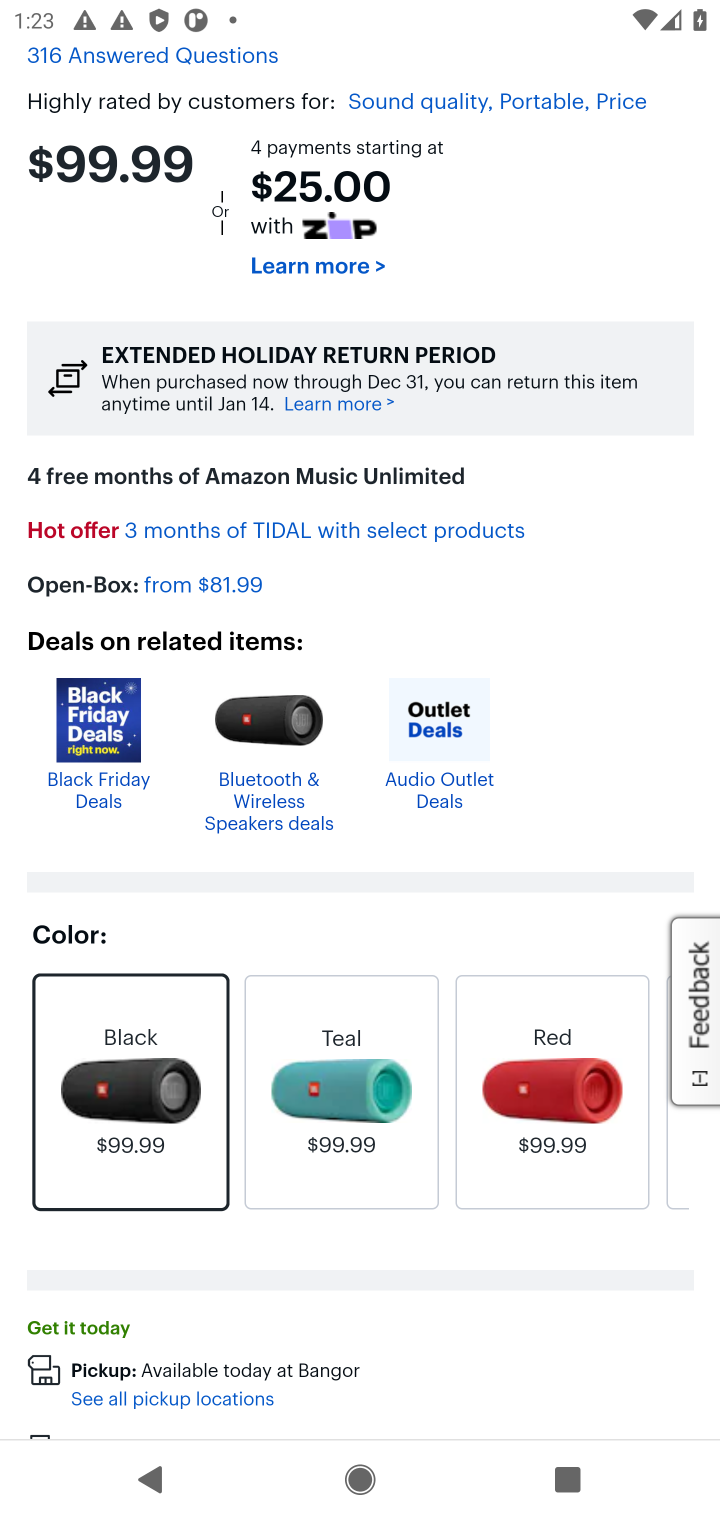
Step 30: drag from (457, 1192) to (407, 575)
Your task to perform on an android device: Clear the shopping cart on bestbuy. Search for "jbl flip 4" on bestbuy, select the first entry, add it to the cart, then select checkout. Image 31: 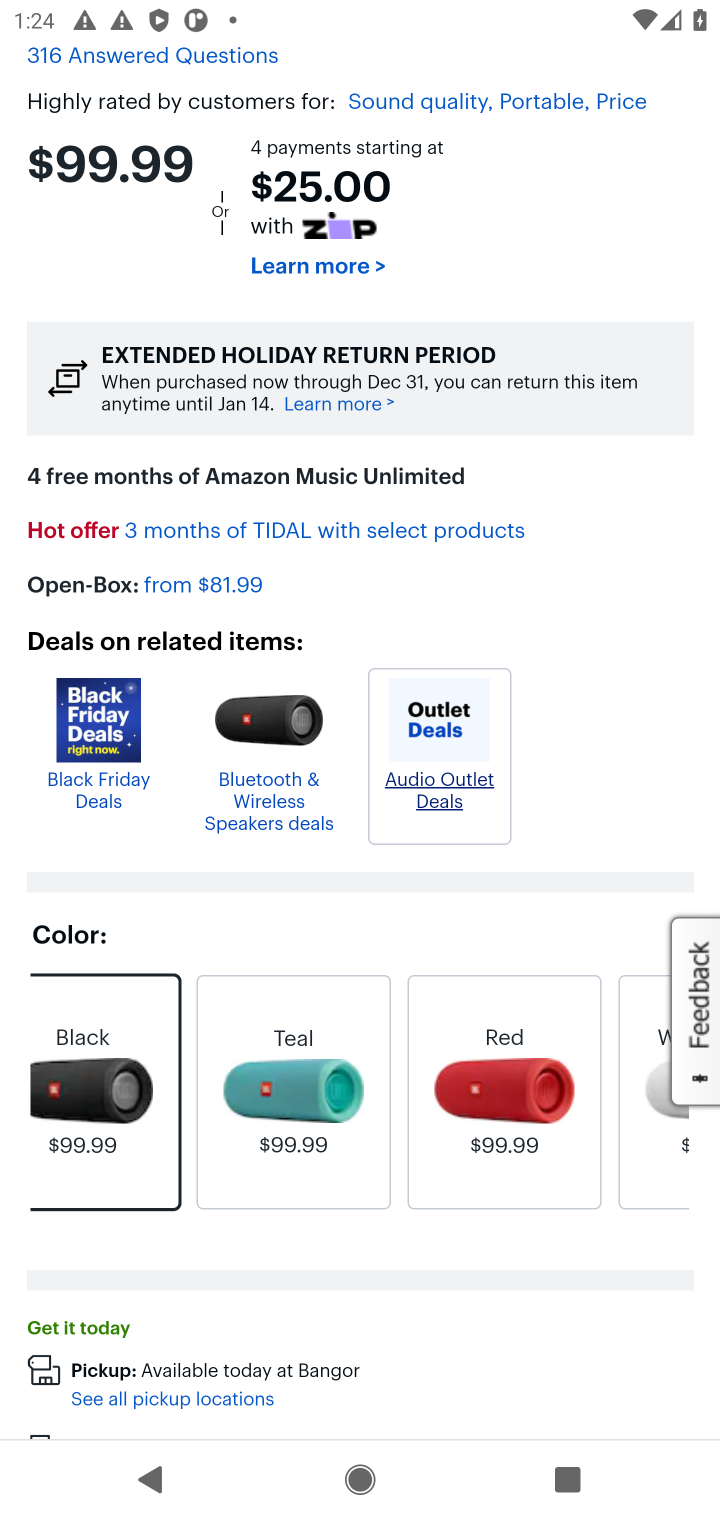
Step 31: drag from (541, 1318) to (461, 563)
Your task to perform on an android device: Clear the shopping cart on bestbuy. Search for "jbl flip 4" on bestbuy, select the first entry, add it to the cart, then select checkout. Image 32: 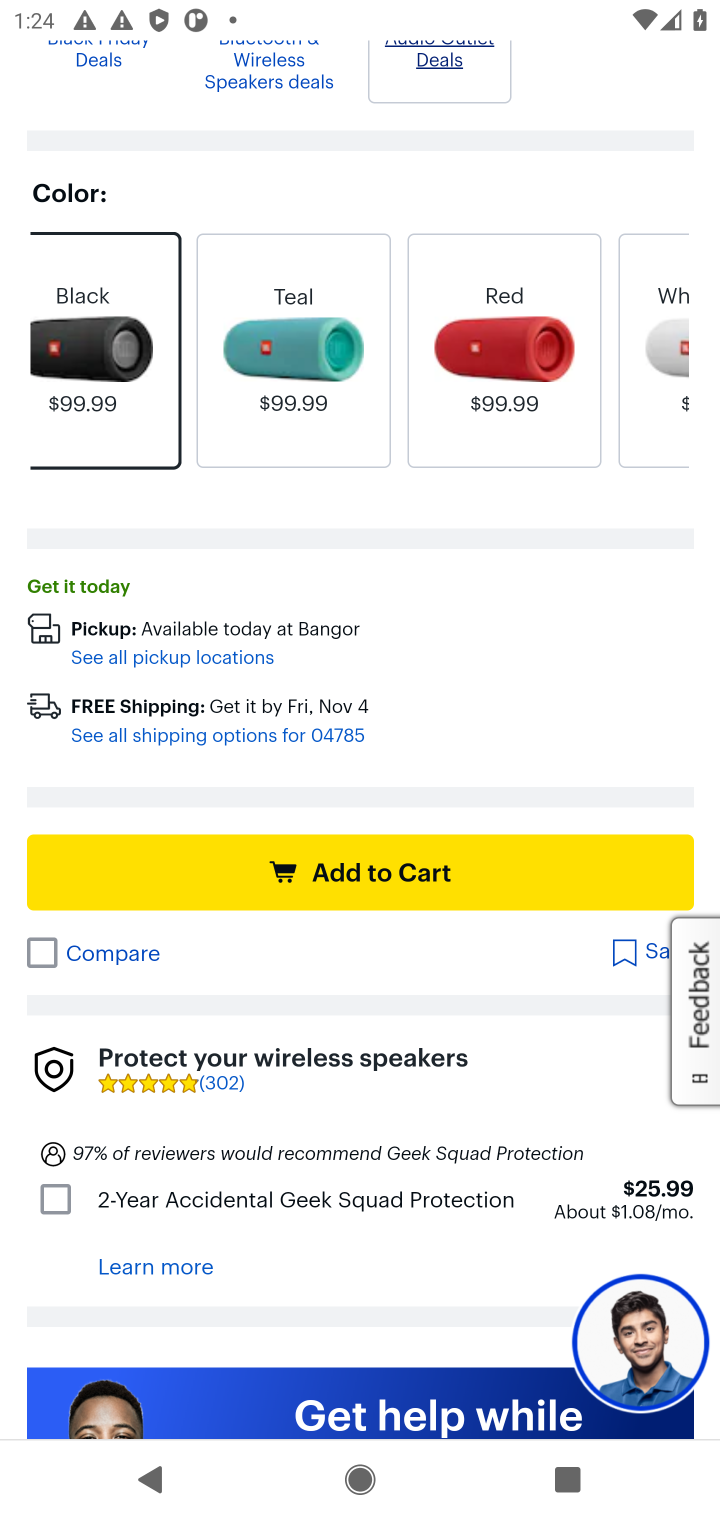
Step 32: click (450, 882)
Your task to perform on an android device: Clear the shopping cart on bestbuy. Search for "jbl flip 4" on bestbuy, select the first entry, add it to the cart, then select checkout. Image 33: 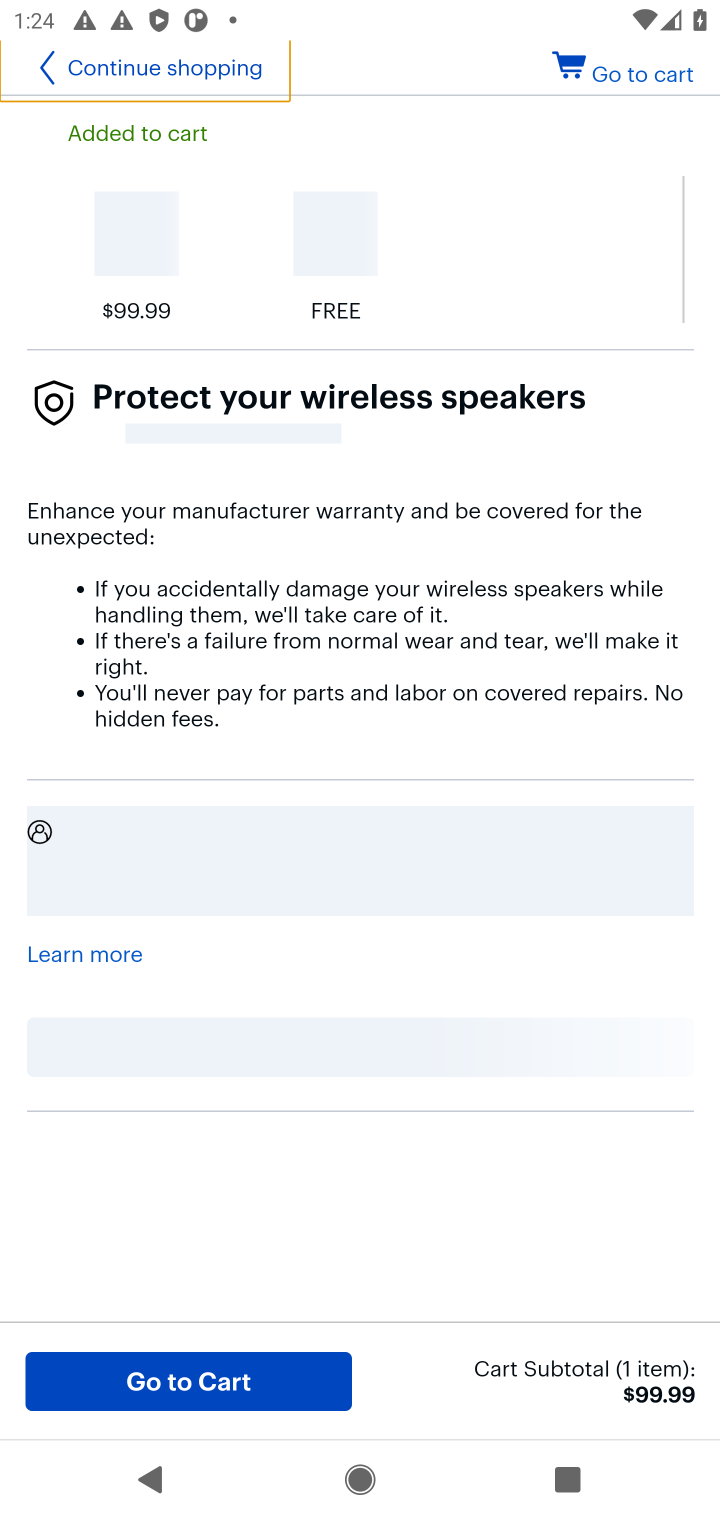
Step 33: click (180, 1373)
Your task to perform on an android device: Clear the shopping cart on bestbuy. Search for "jbl flip 4" on bestbuy, select the first entry, add it to the cart, then select checkout. Image 34: 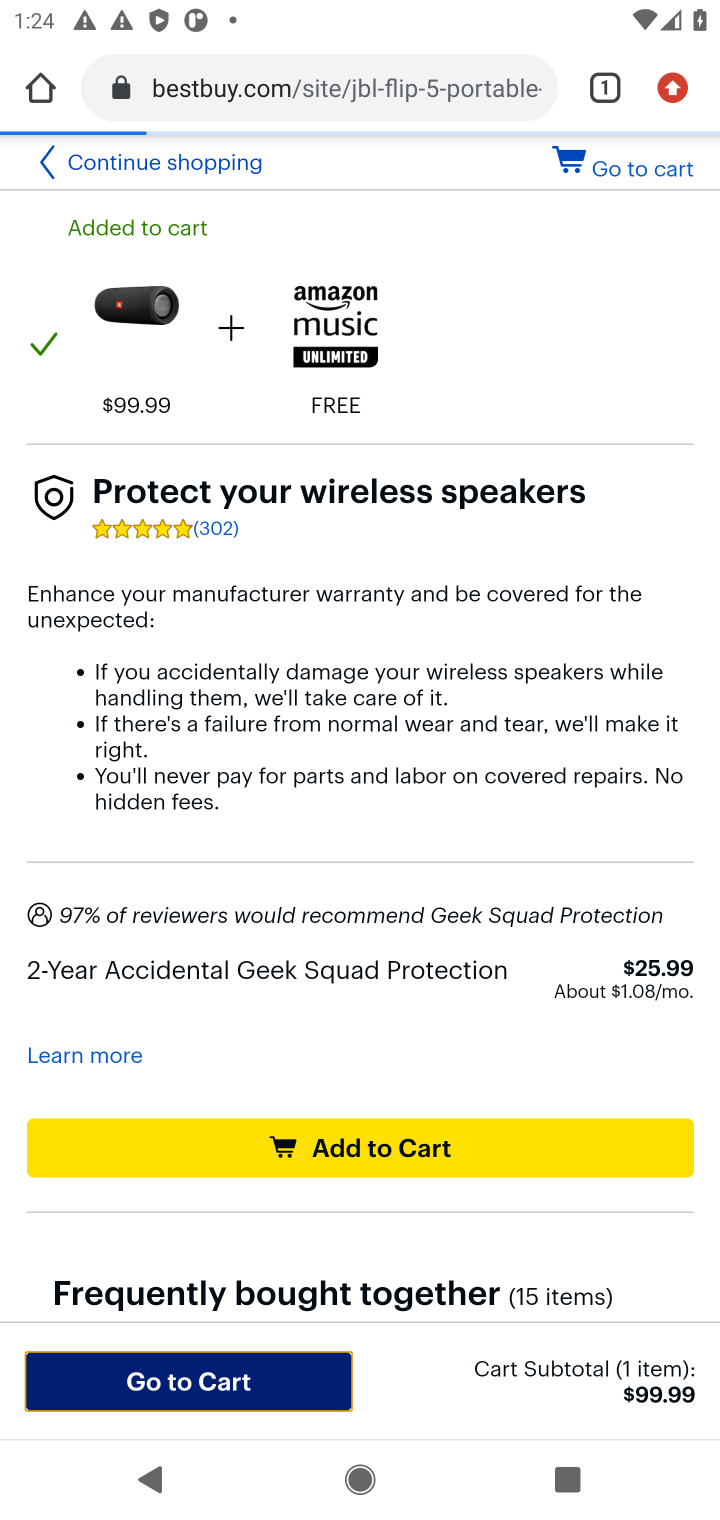
Step 34: click (214, 1396)
Your task to perform on an android device: Clear the shopping cart on bestbuy. Search for "jbl flip 4" on bestbuy, select the first entry, add it to the cart, then select checkout. Image 35: 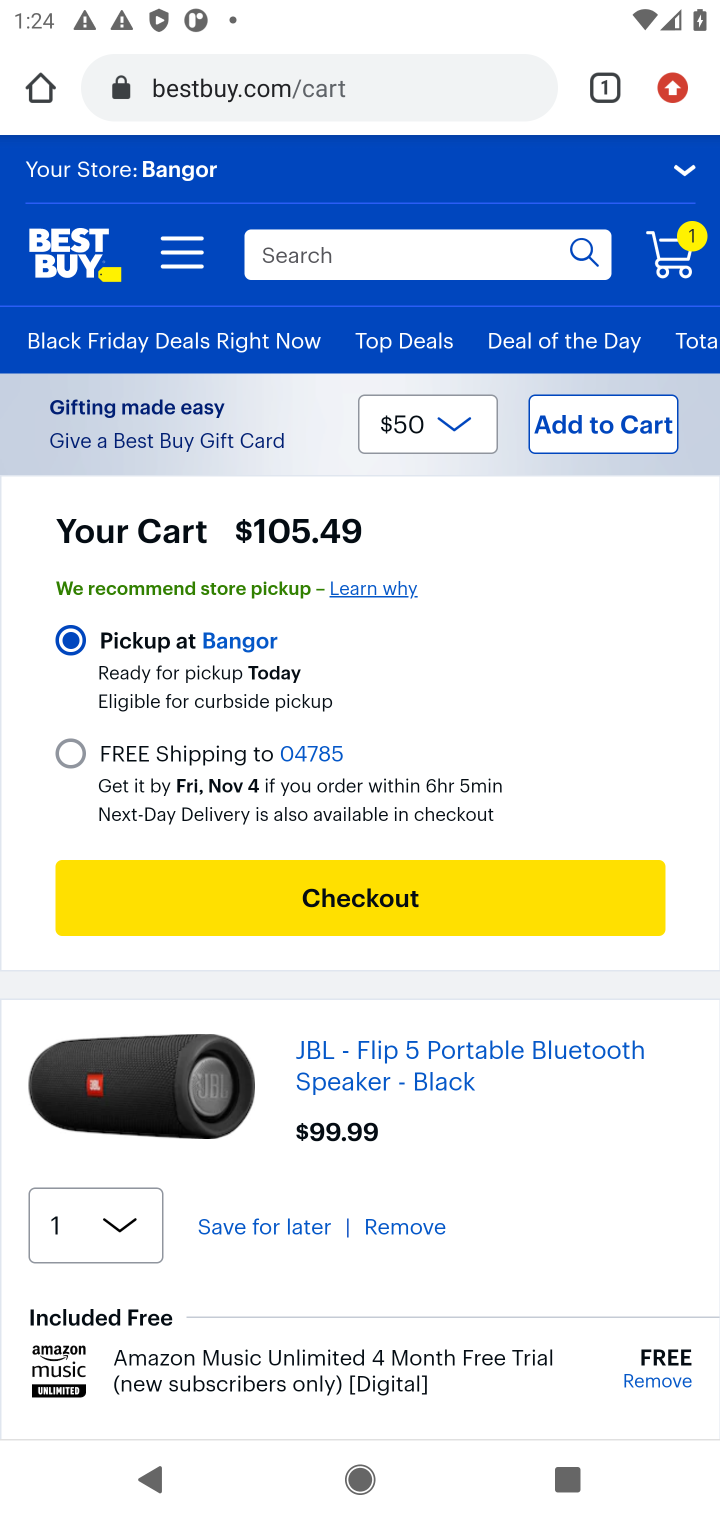
Step 35: click (446, 901)
Your task to perform on an android device: Clear the shopping cart on bestbuy. Search for "jbl flip 4" on bestbuy, select the first entry, add it to the cart, then select checkout. Image 36: 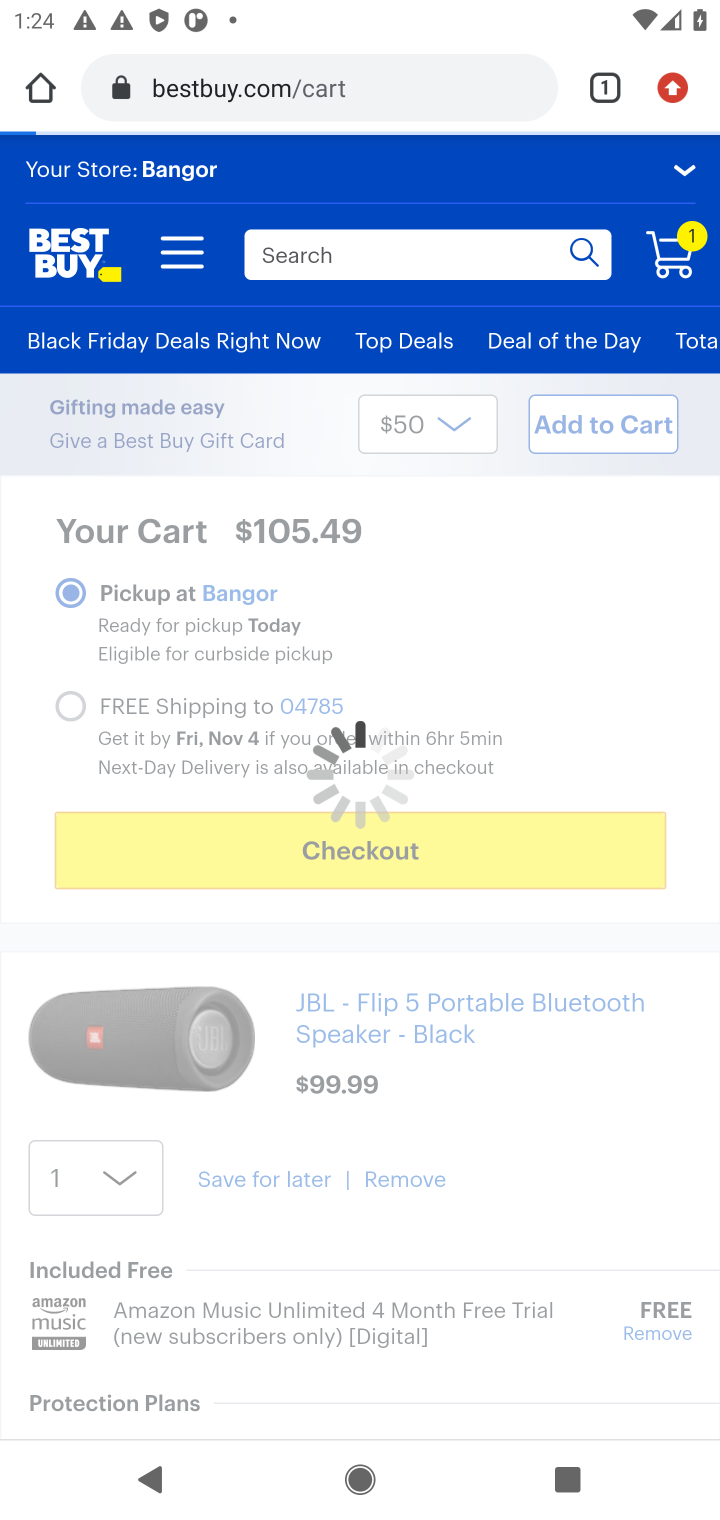
Step 36: task complete